Your task to perform on an android device: Add acer predator to the cart on ebay.com Image 0: 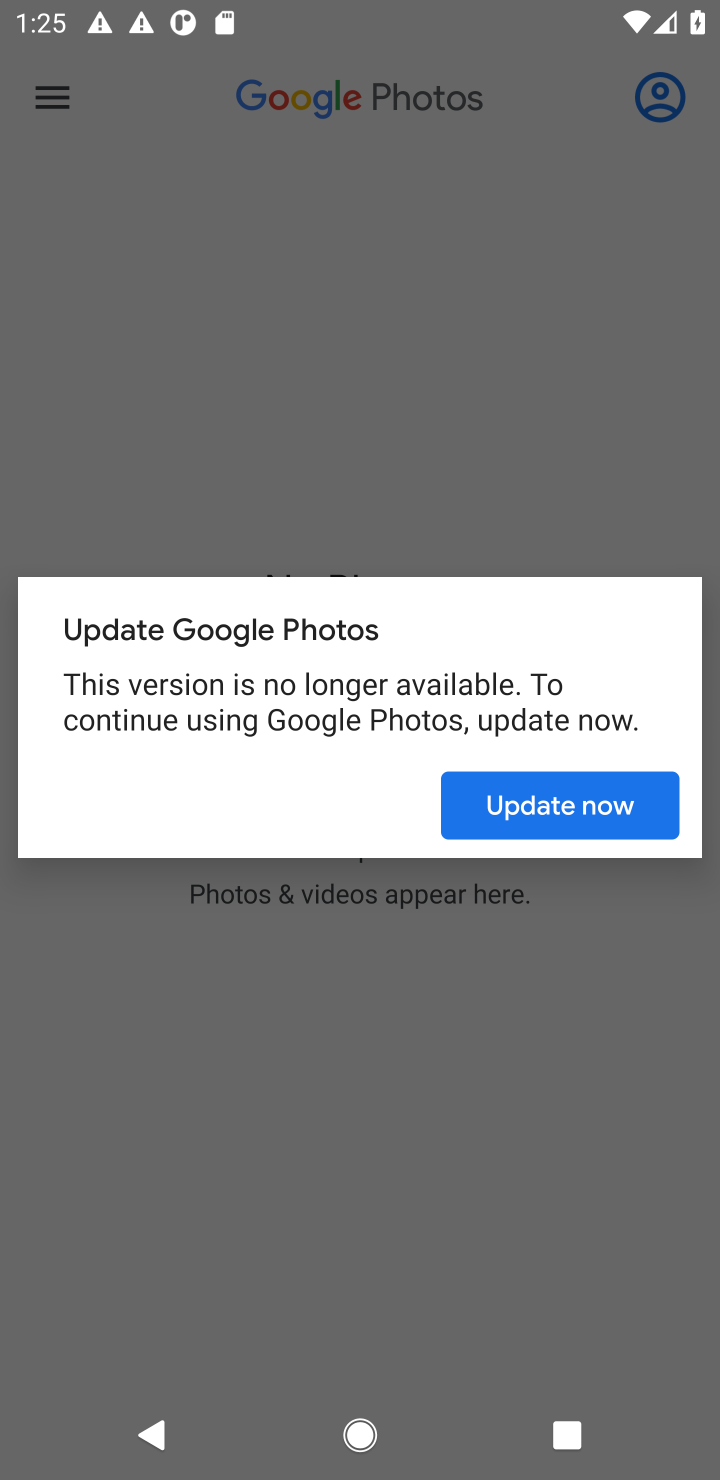
Step 0: press home button
Your task to perform on an android device: Add acer predator to the cart on ebay.com Image 1: 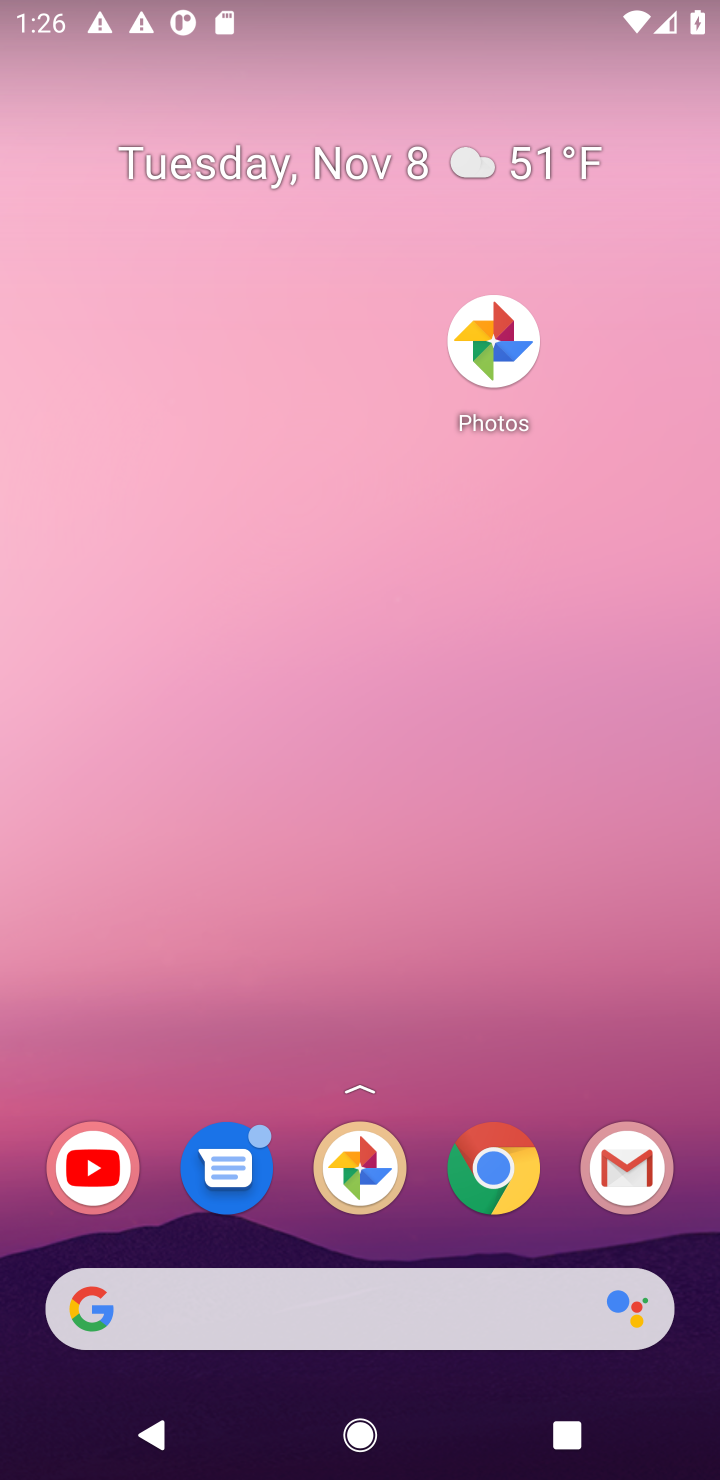
Step 1: drag from (189, 913) to (230, 49)
Your task to perform on an android device: Add acer predator to the cart on ebay.com Image 2: 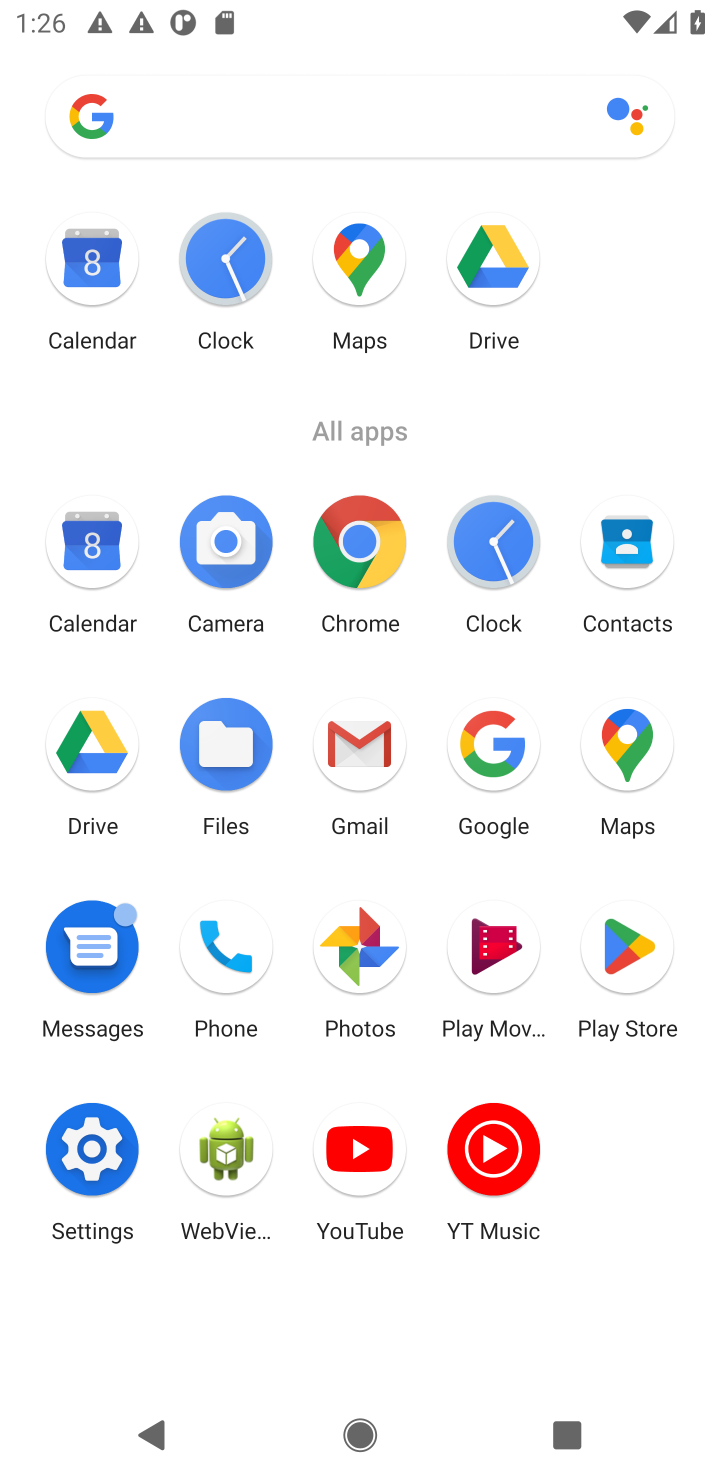
Step 2: click (351, 526)
Your task to perform on an android device: Add acer predator to the cart on ebay.com Image 3: 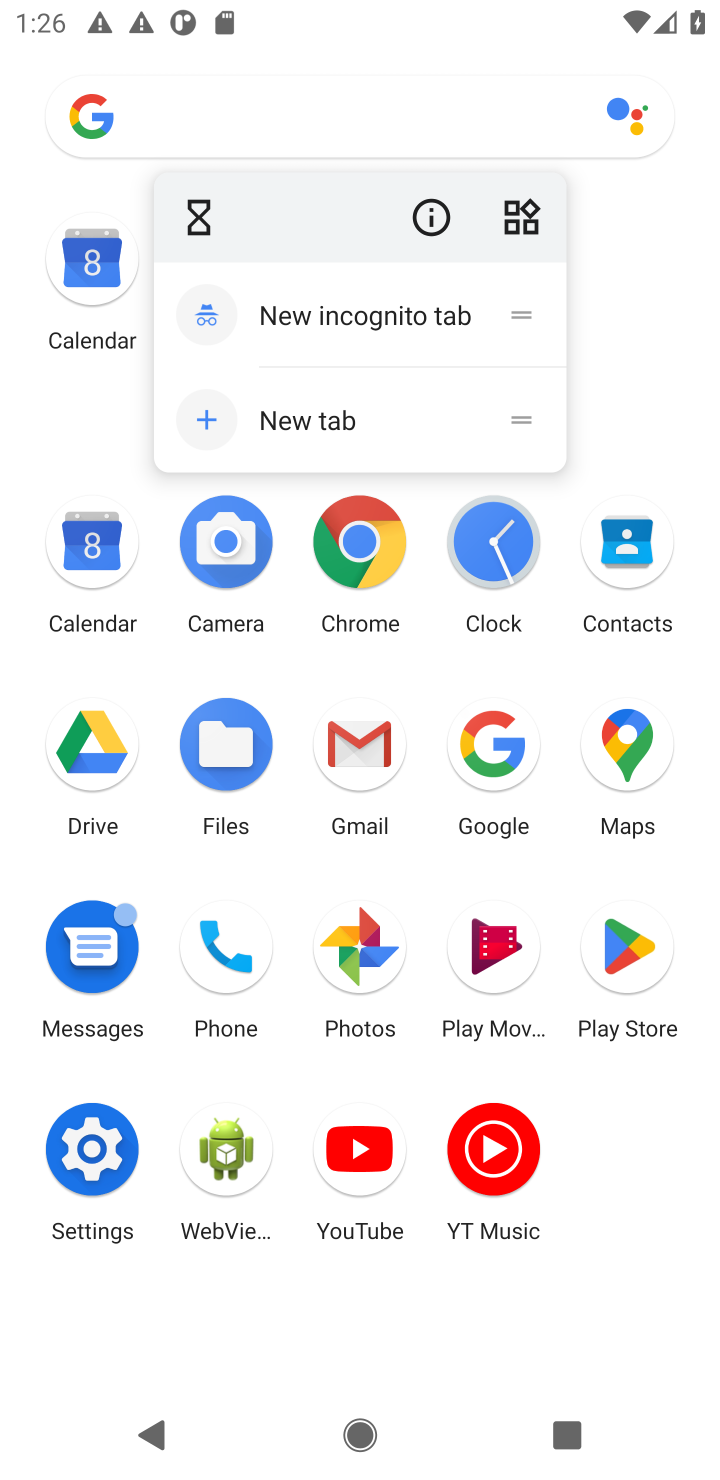
Step 3: click (401, 555)
Your task to perform on an android device: Add acer predator to the cart on ebay.com Image 4: 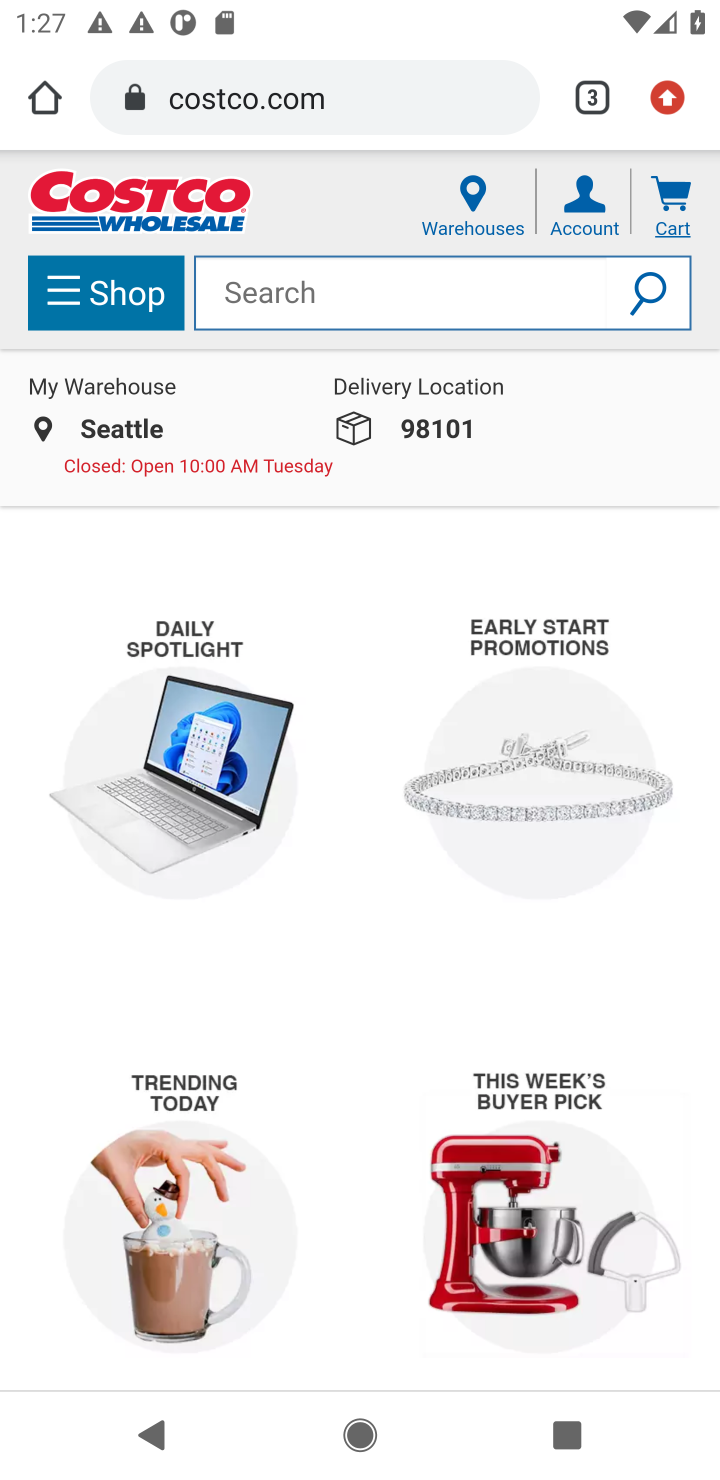
Step 4: click (312, 88)
Your task to perform on an android device: Add acer predator to the cart on ebay.com Image 5: 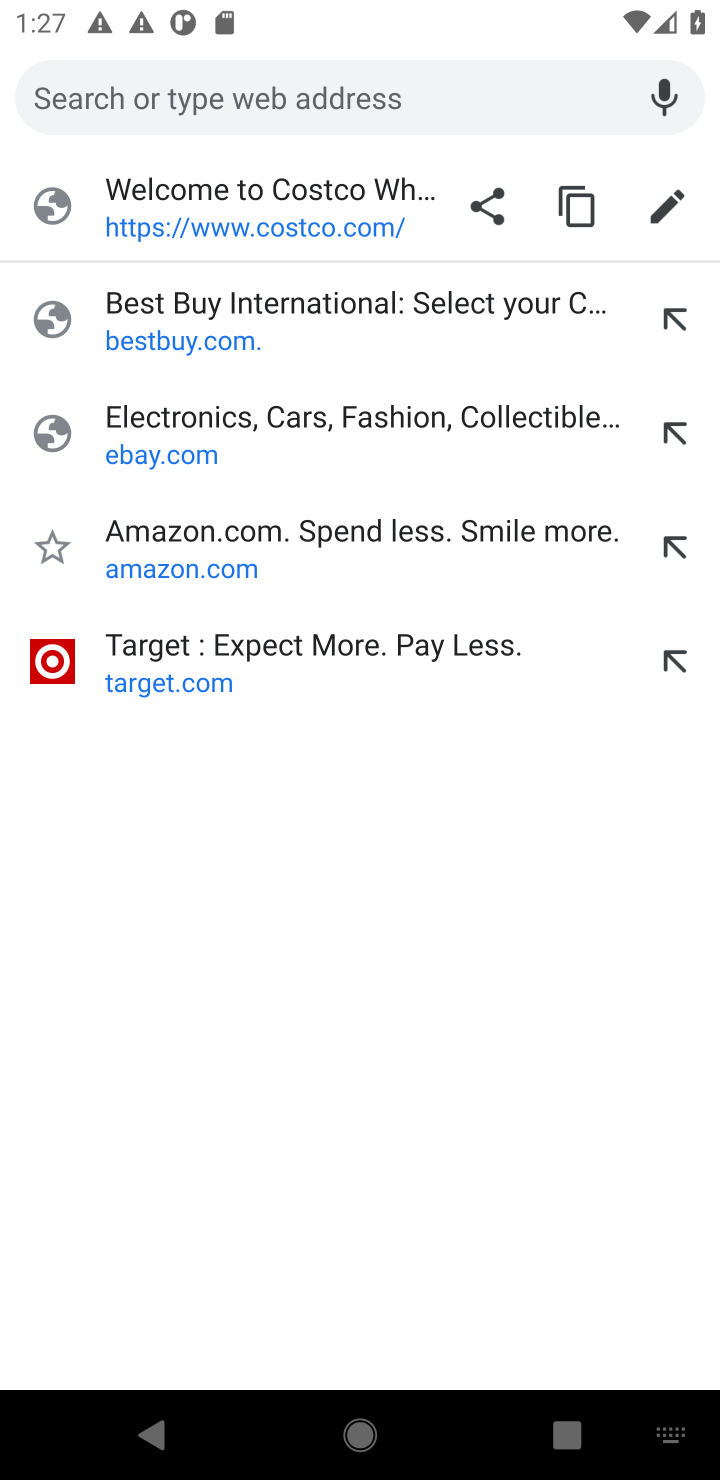
Step 5: type "ebay.com"
Your task to perform on an android device: Add acer predator to the cart on ebay.com Image 6: 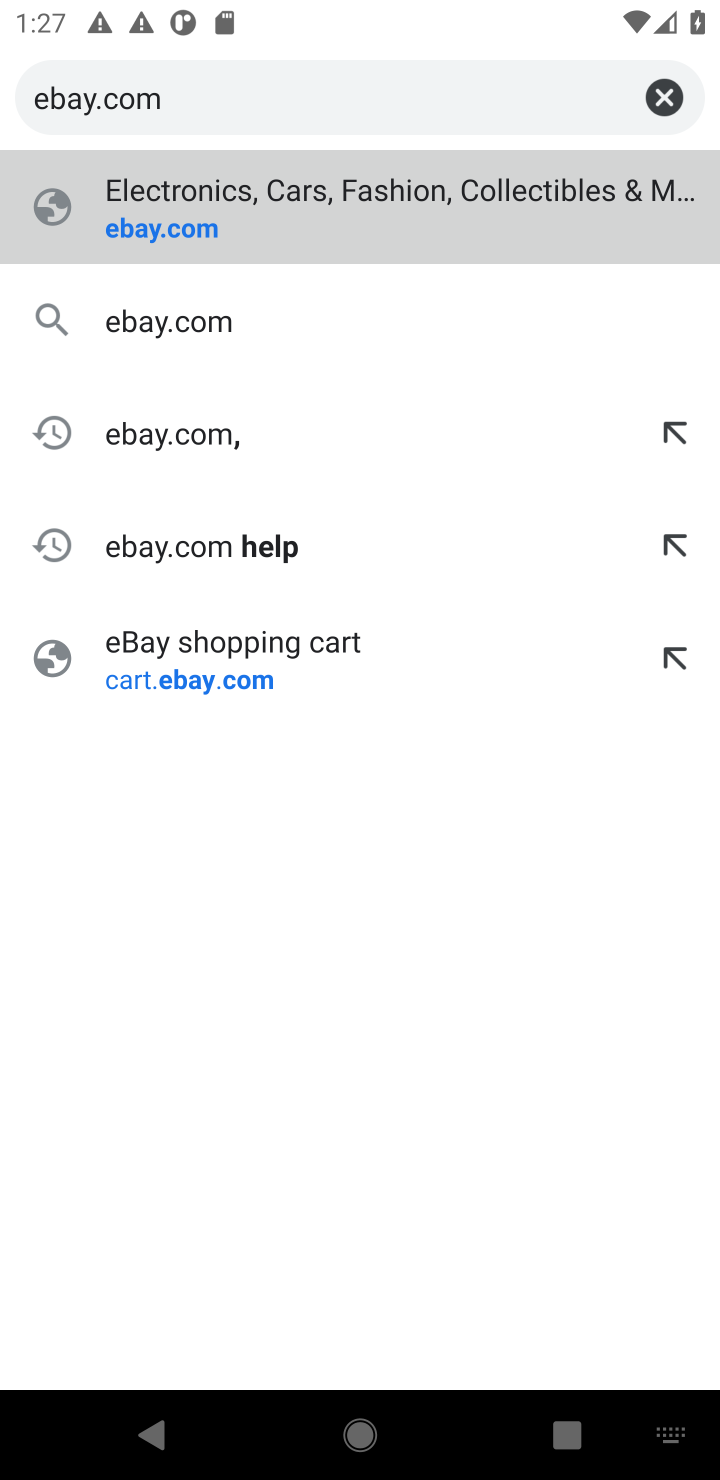
Step 6: press enter
Your task to perform on an android device: Add acer predator to the cart on ebay.com Image 7: 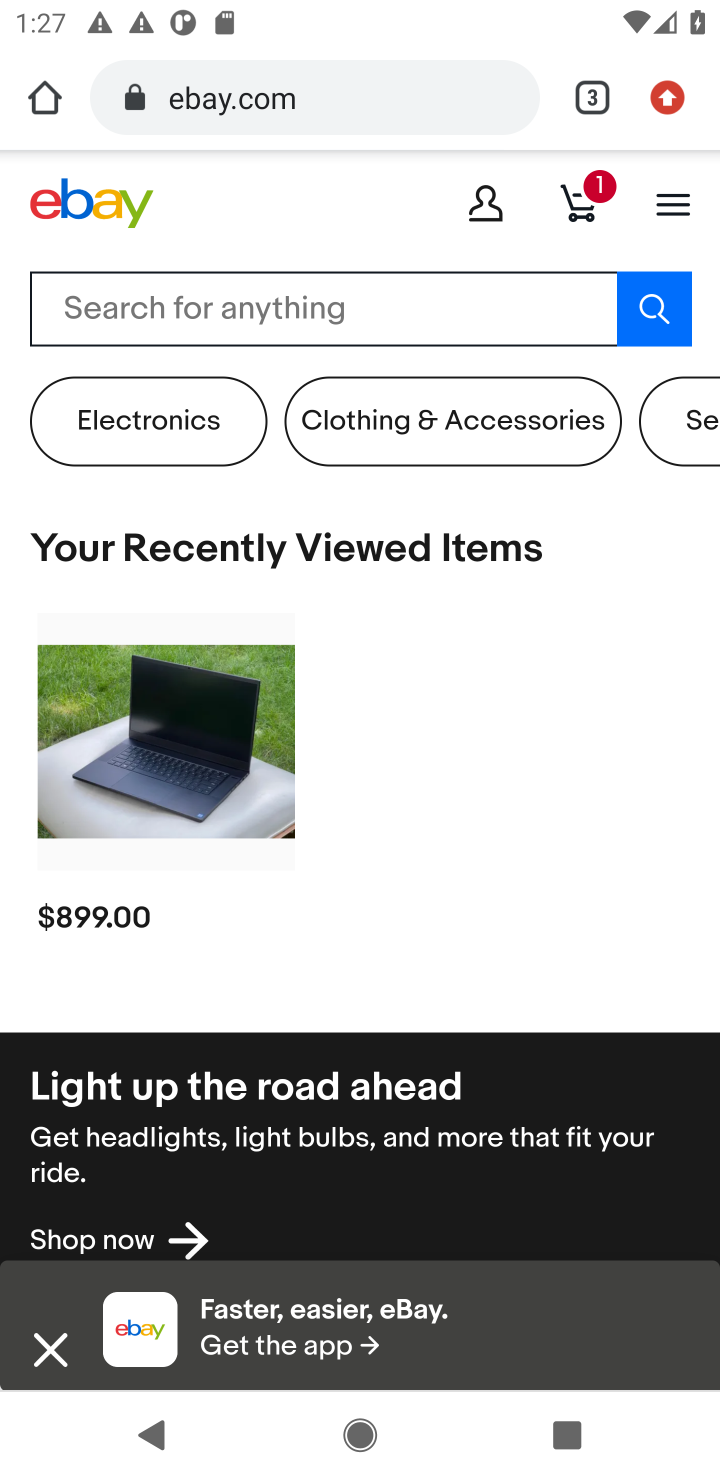
Step 7: click (274, 302)
Your task to perform on an android device: Add acer predator to the cart on ebay.com Image 8: 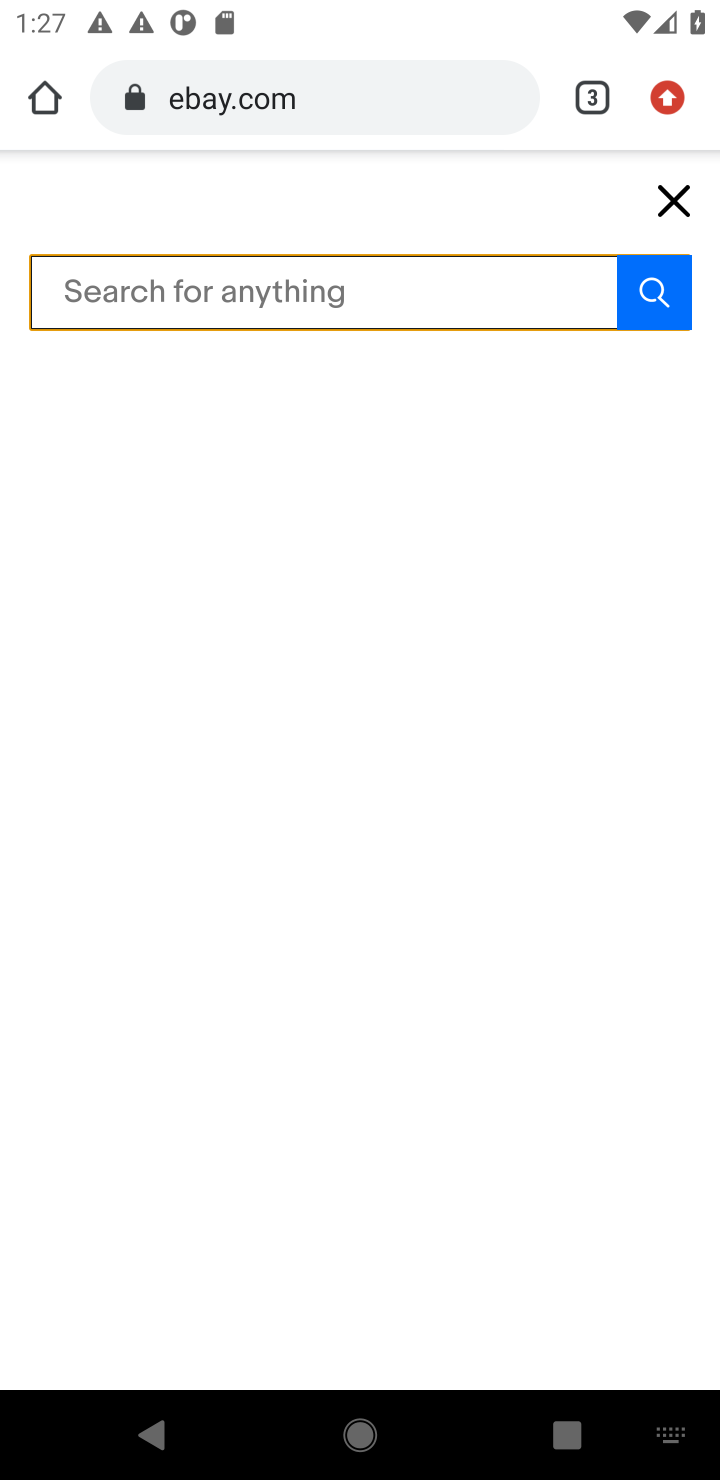
Step 8: press enter
Your task to perform on an android device: Add acer predator to the cart on ebay.com Image 9: 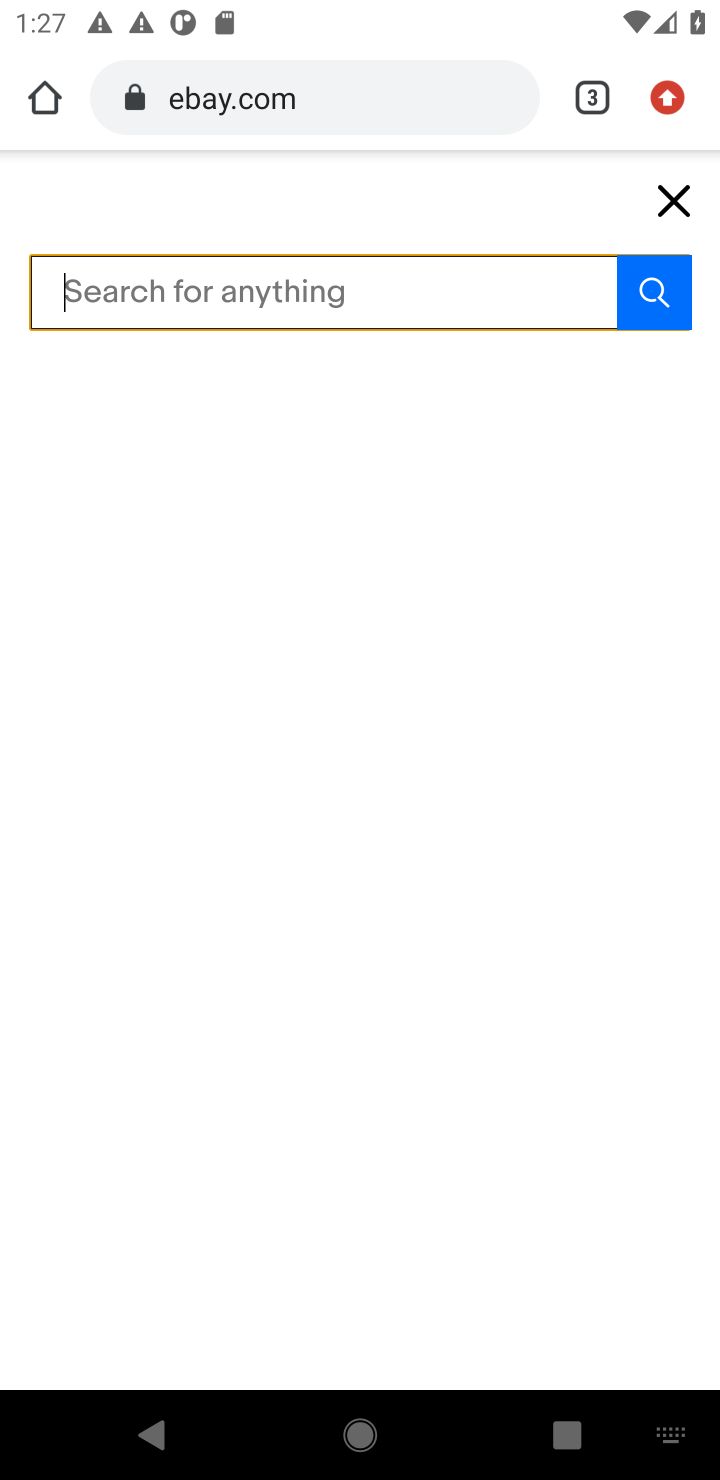
Step 9: type "acer predator"
Your task to perform on an android device: Add acer predator to the cart on ebay.com Image 10: 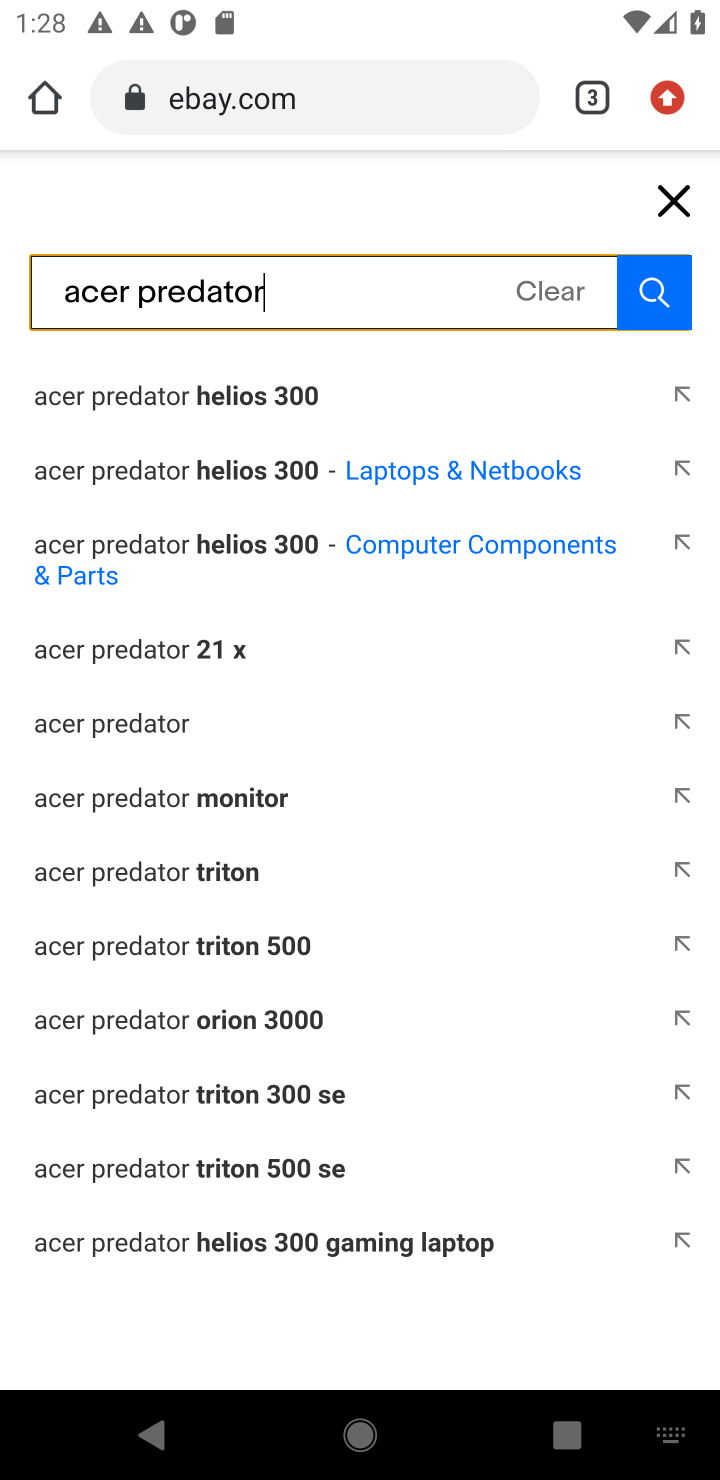
Step 10: click (650, 291)
Your task to perform on an android device: Add acer predator to the cart on ebay.com Image 11: 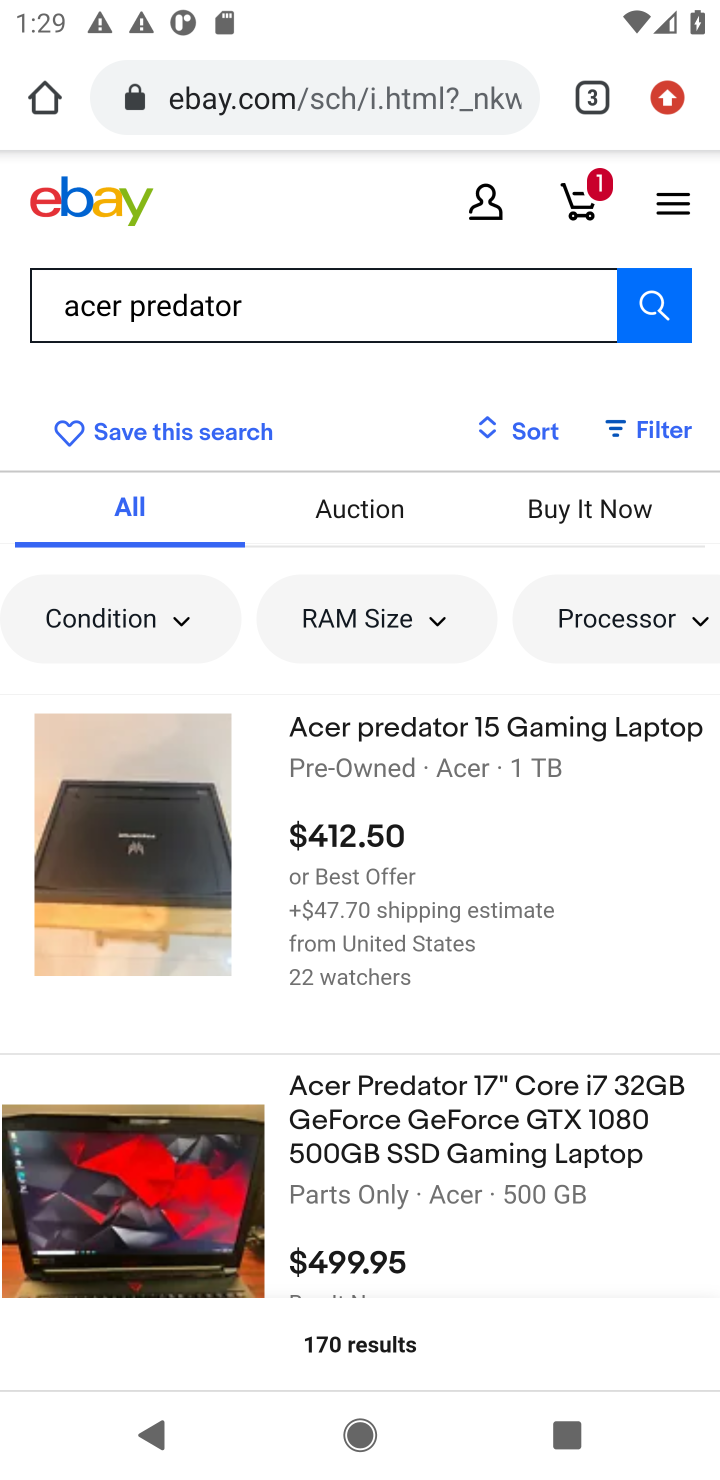
Step 11: click (473, 748)
Your task to perform on an android device: Add acer predator to the cart on ebay.com Image 12: 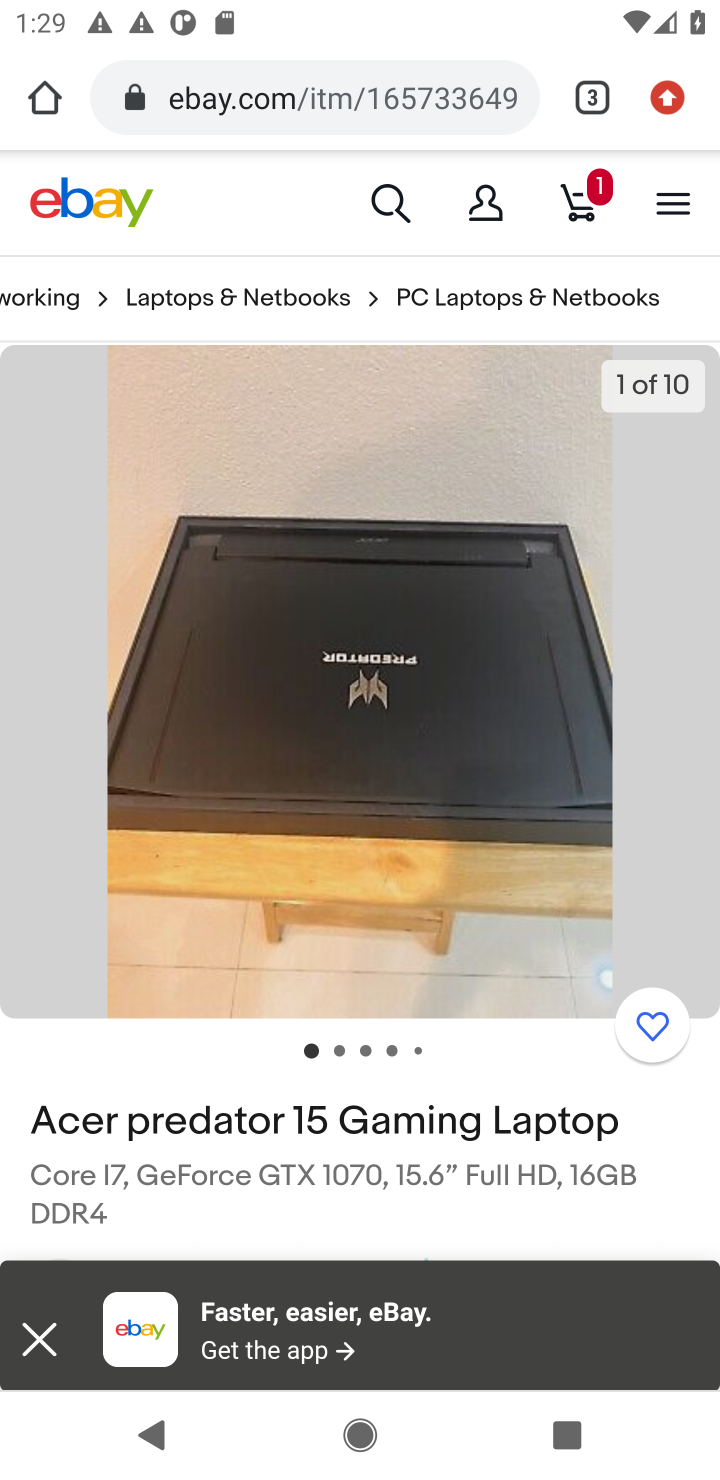
Step 12: drag from (447, 834) to (499, 571)
Your task to perform on an android device: Add acer predator to the cart on ebay.com Image 13: 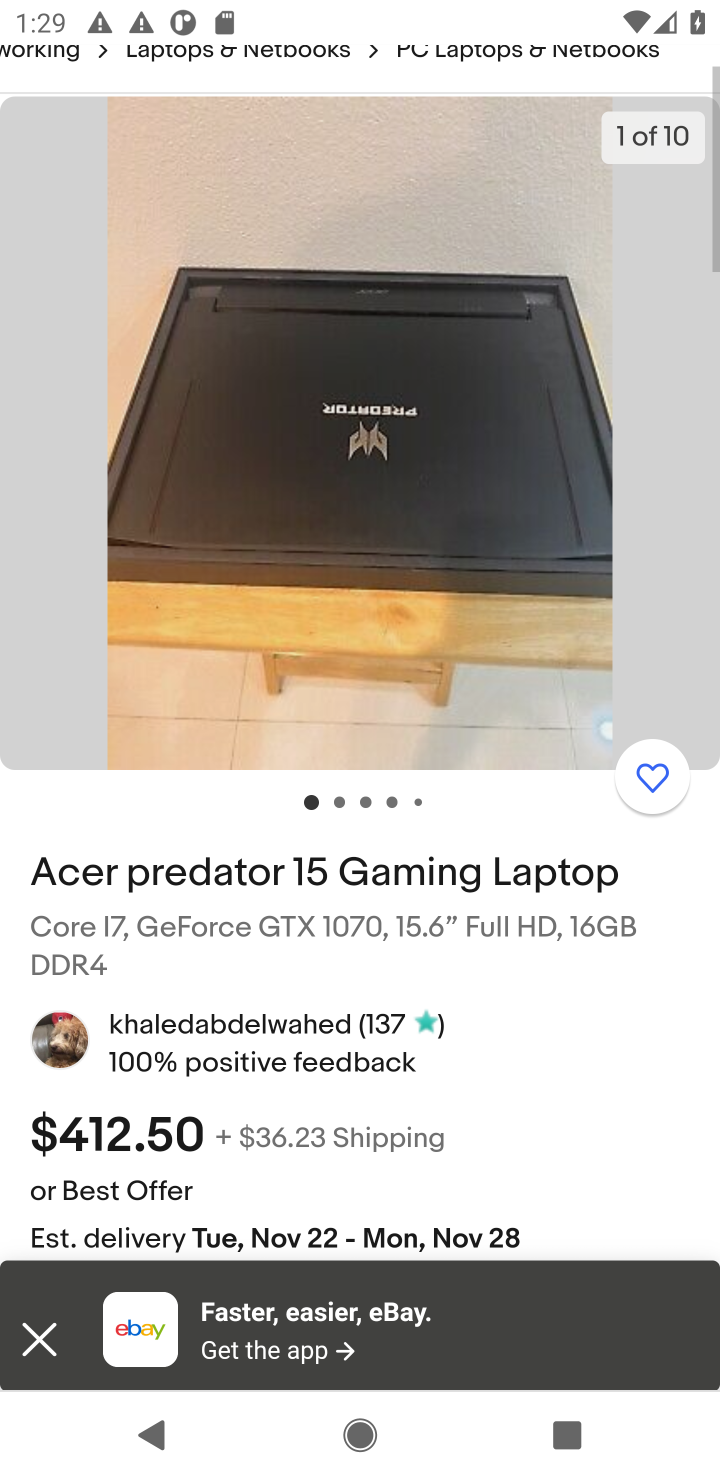
Step 13: click (427, 734)
Your task to perform on an android device: Add acer predator to the cart on ebay.com Image 14: 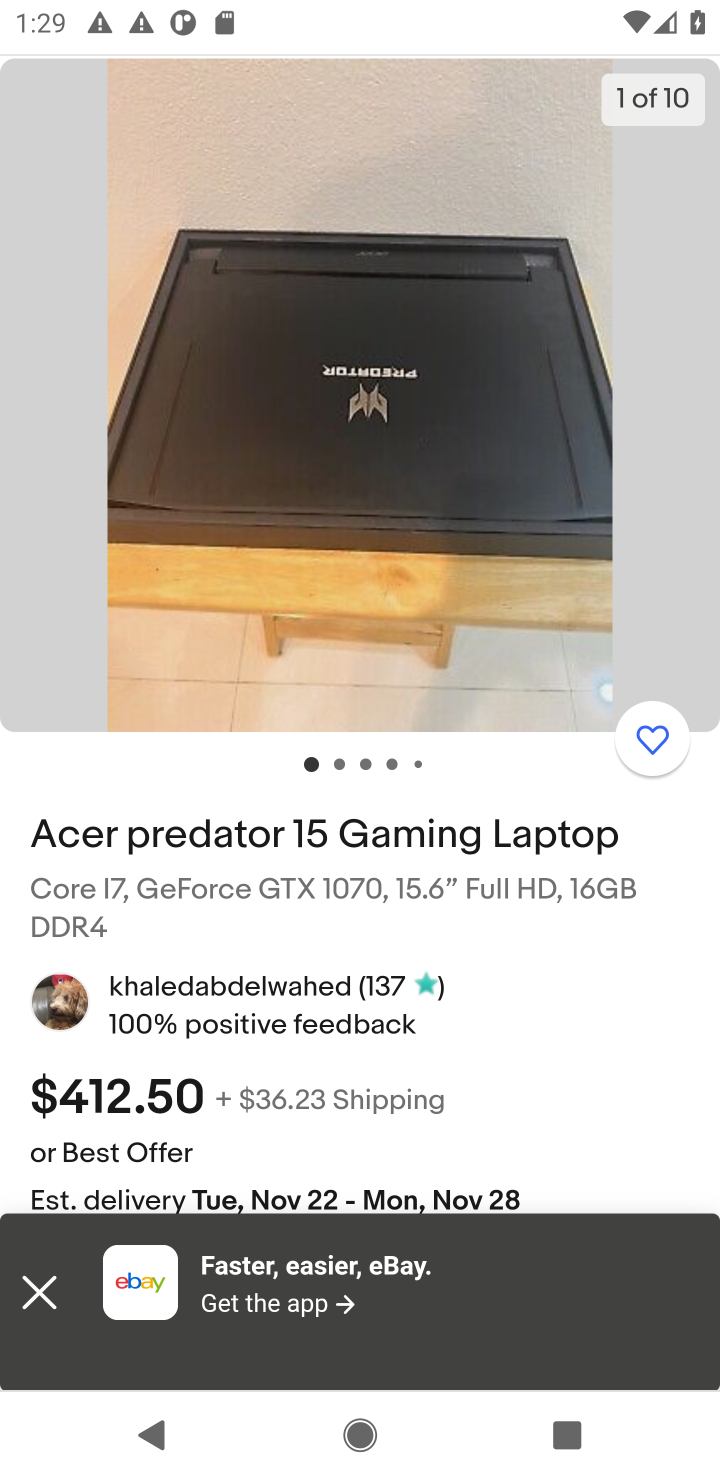
Step 14: drag from (498, 725) to (509, 546)
Your task to perform on an android device: Add acer predator to the cart on ebay.com Image 15: 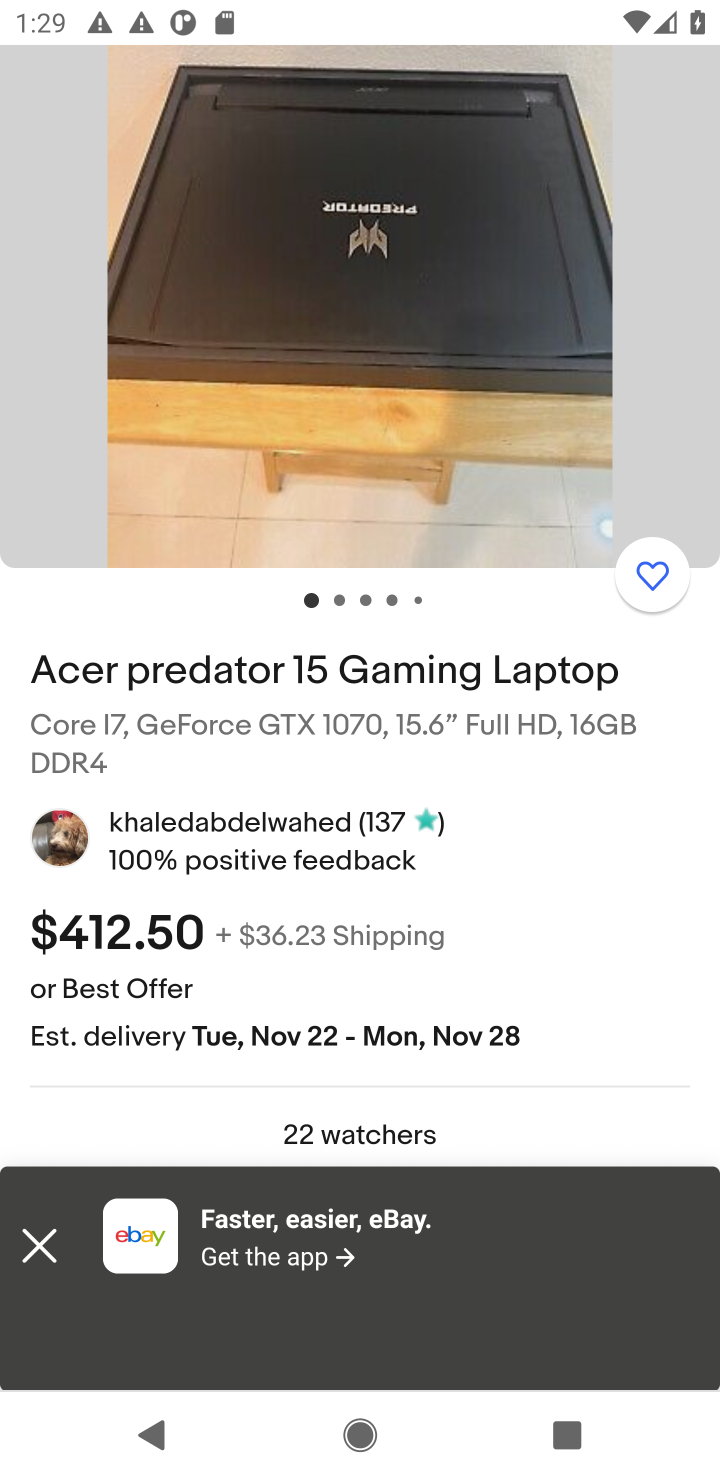
Step 15: drag from (406, 953) to (414, 480)
Your task to perform on an android device: Add acer predator to the cart on ebay.com Image 16: 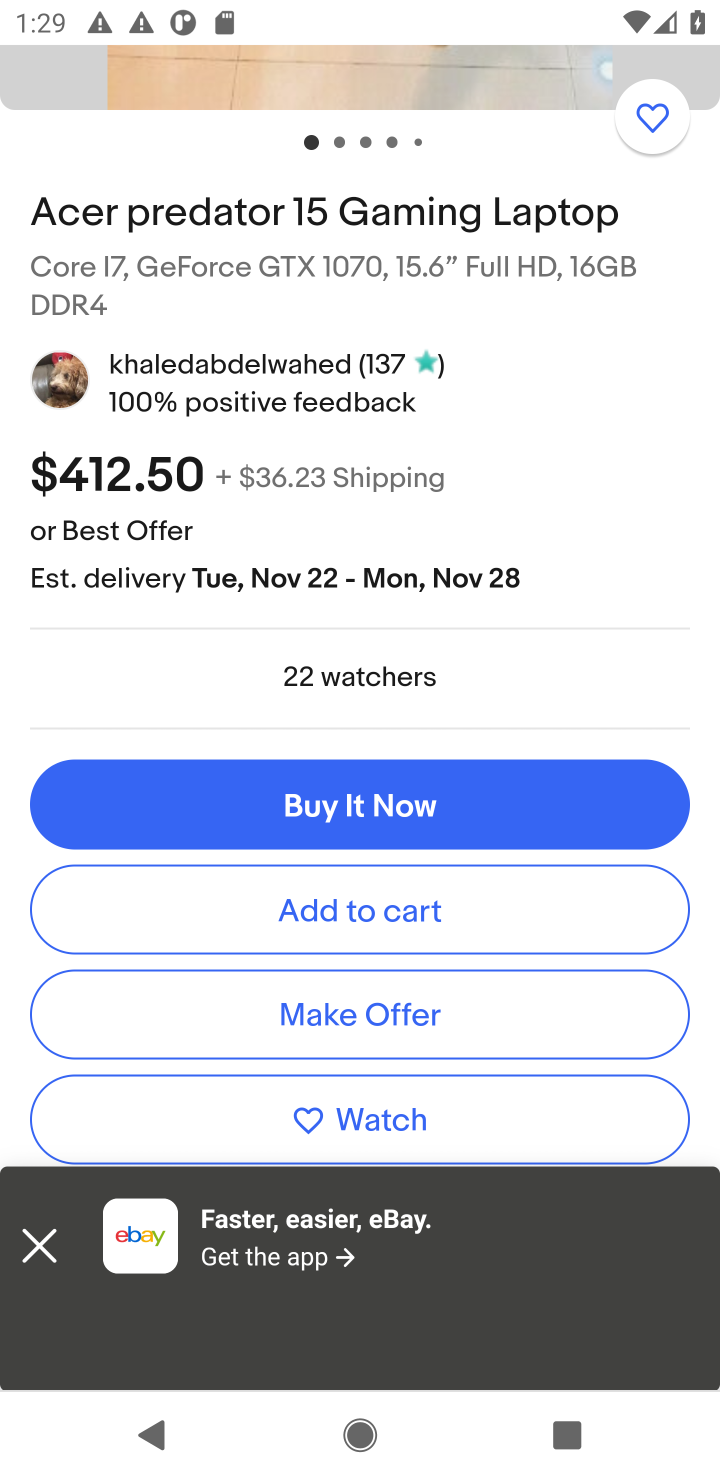
Step 16: click (429, 918)
Your task to perform on an android device: Add acer predator to the cart on ebay.com Image 17: 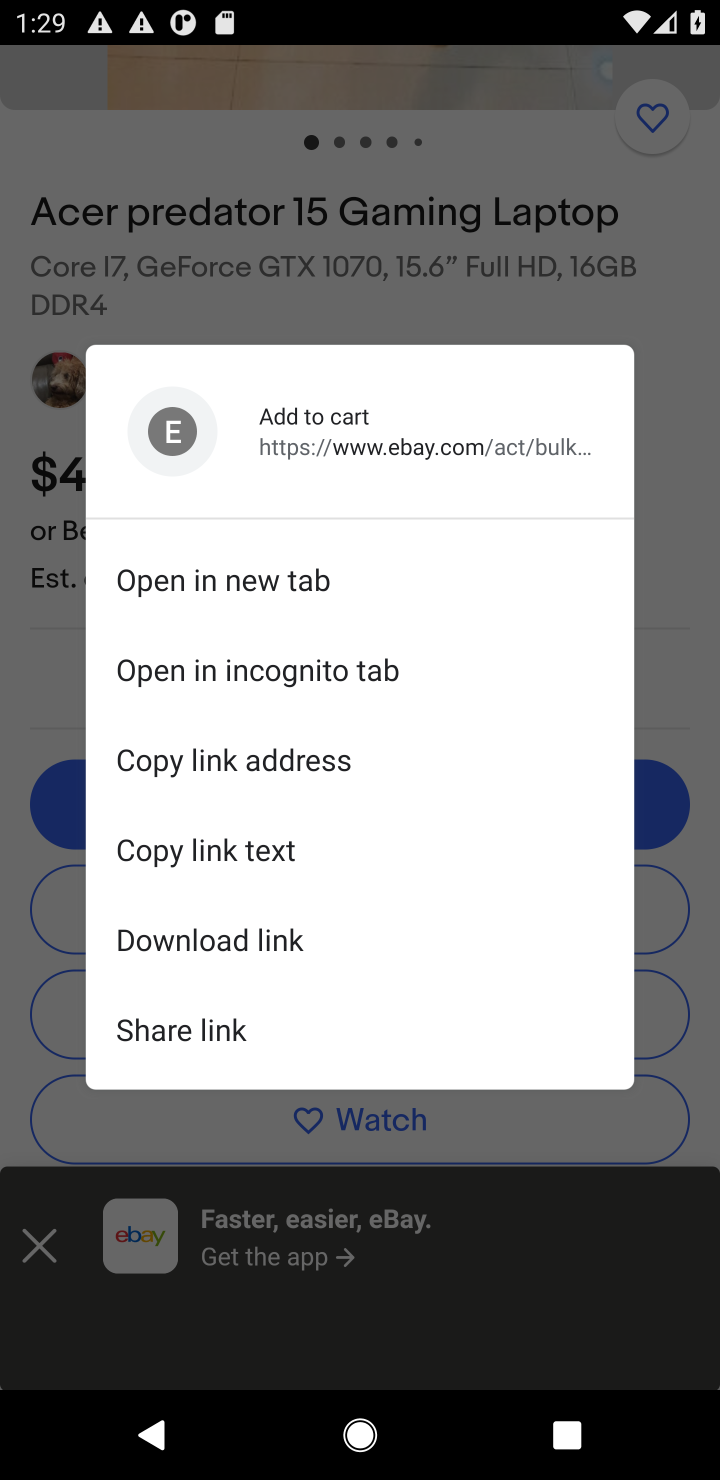
Step 17: click (292, 580)
Your task to perform on an android device: Add acer predator to the cart on ebay.com Image 18: 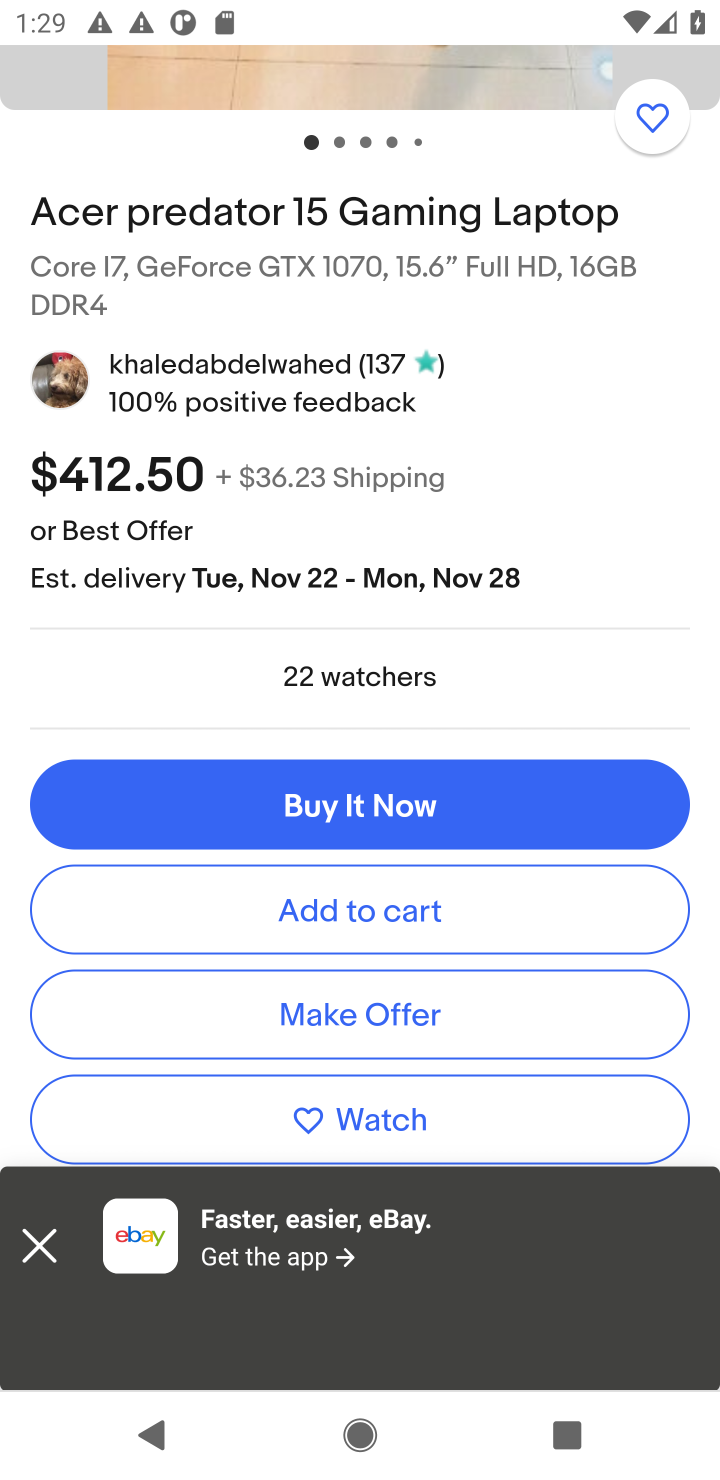
Step 18: click (360, 907)
Your task to perform on an android device: Add acer predator to the cart on ebay.com Image 19: 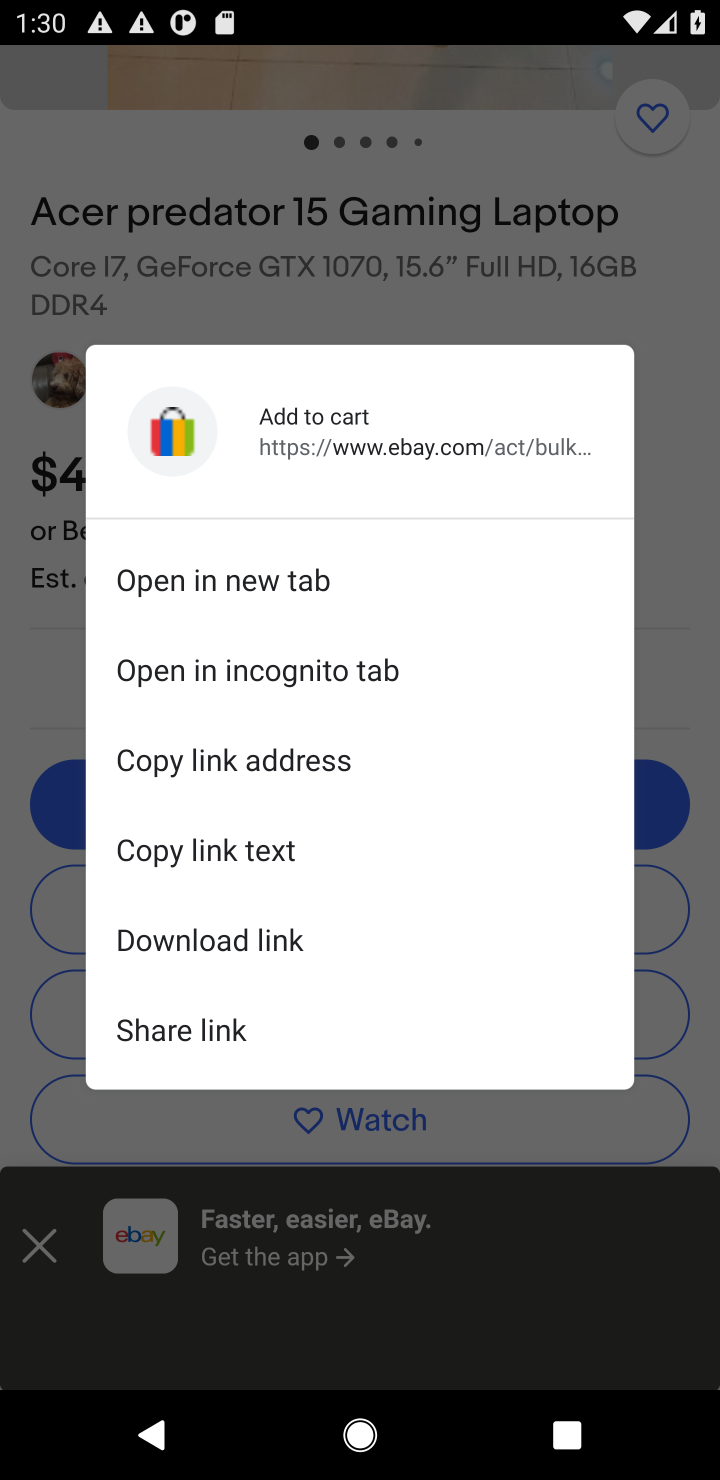
Step 19: click (275, 592)
Your task to perform on an android device: Add acer predator to the cart on ebay.com Image 20: 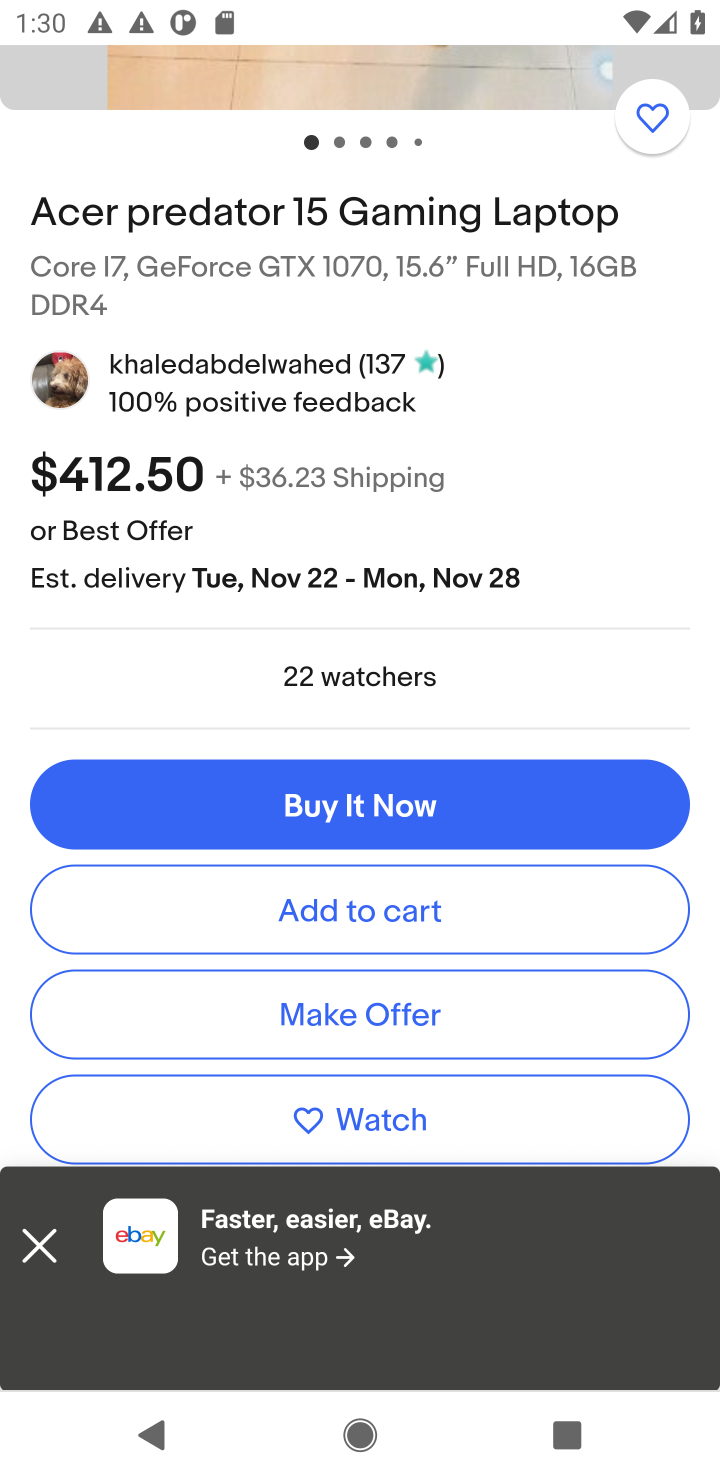
Step 20: drag from (438, 593) to (526, 967)
Your task to perform on an android device: Add acer predator to the cart on ebay.com Image 21: 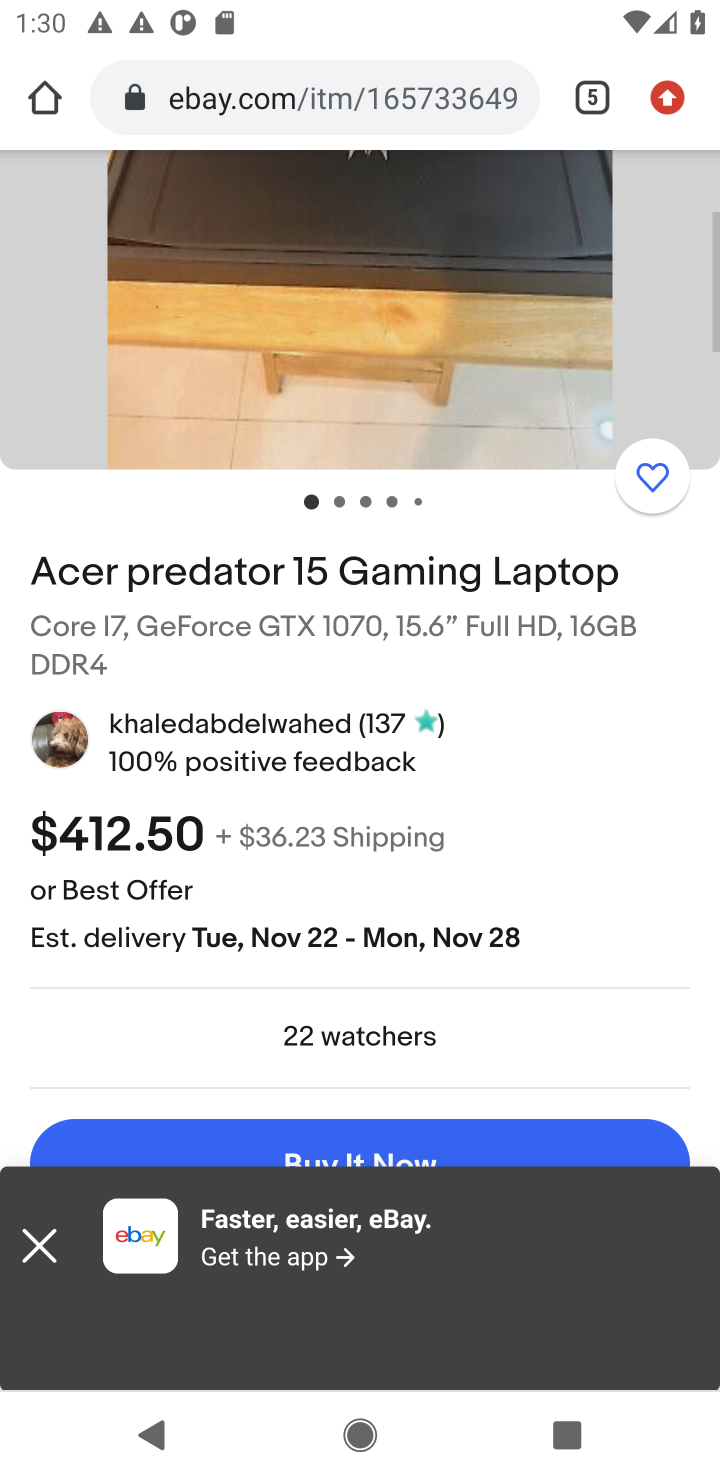
Step 21: drag from (539, 1028) to (585, 523)
Your task to perform on an android device: Add acer predator to the cart on ebay.com Image 22: 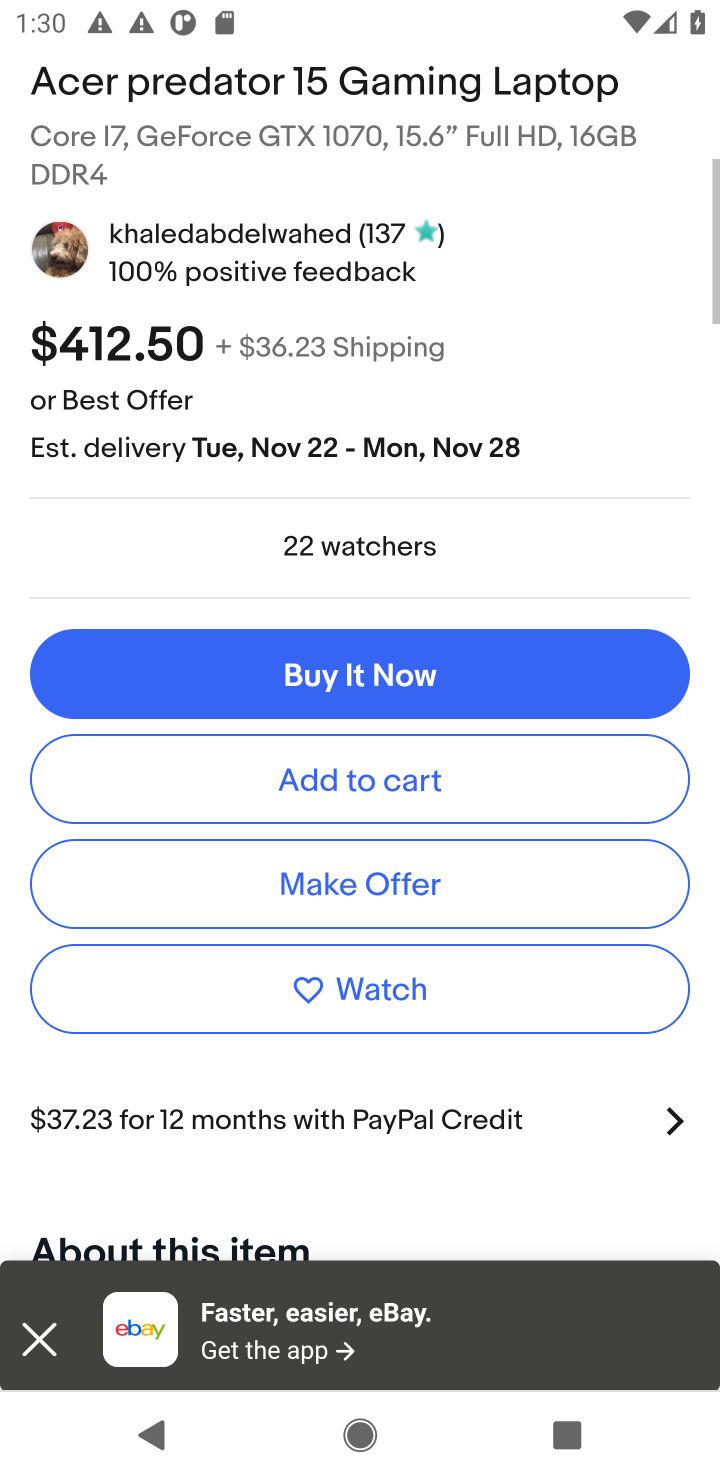
Step 22: drag from (512, 960) to (527, 513)
Your task to perform on an android device: Add acer predator to the cart on ebay.com Image 23: 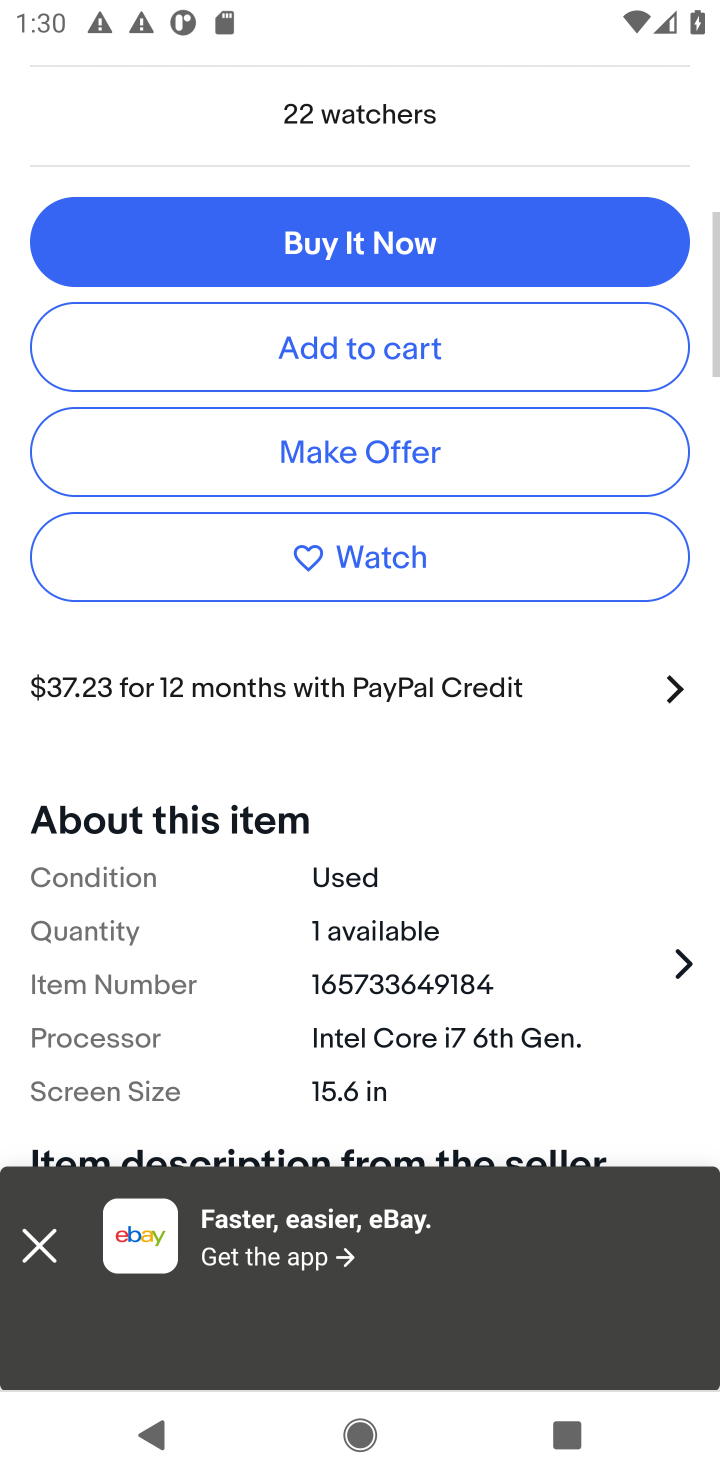
Step 23: drag from (492, 1047) to (513, 523)
Your task to perform on an android device: Add acer predator to the cart on ebay.com Image 24: 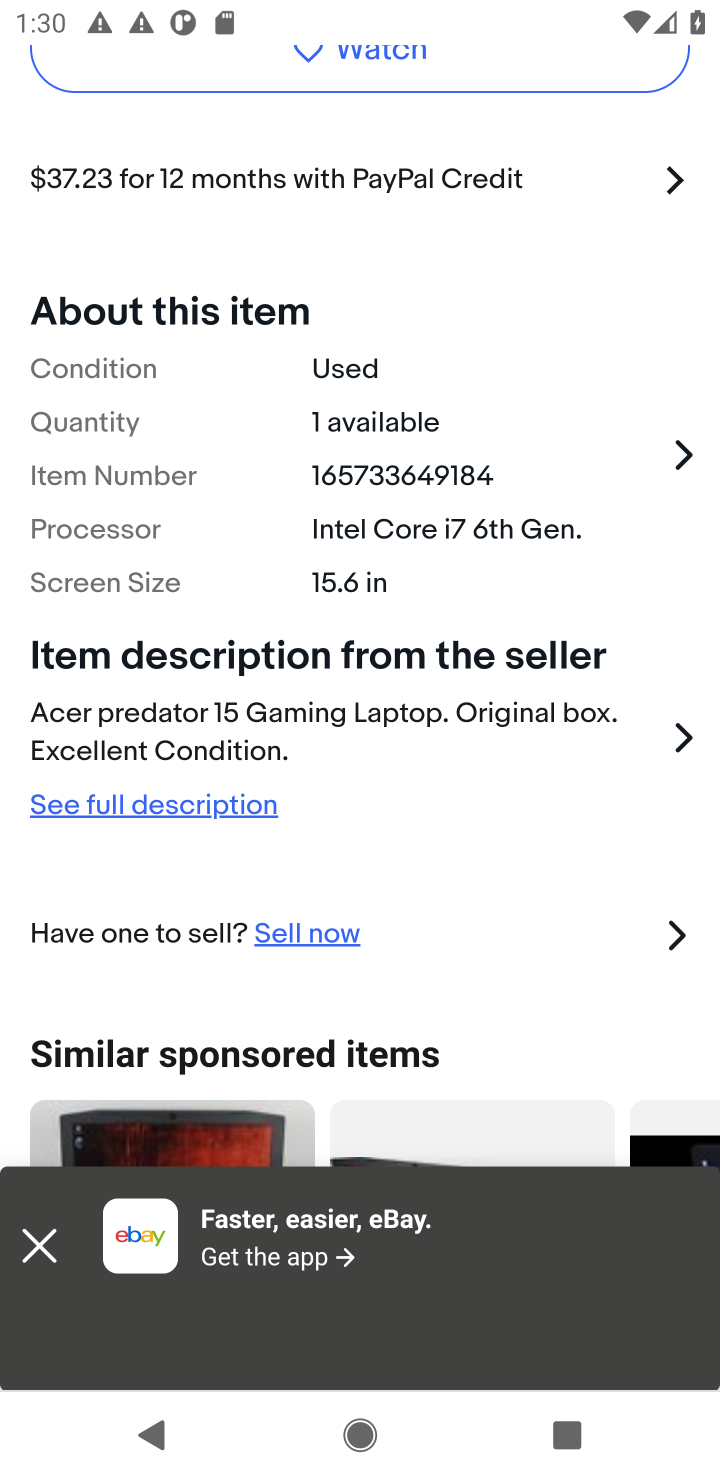
Step 24: drag from (510, 665) to (506, 1010)
Your task to perform on an android device: Add acer predator to the cart on ebay.com Image 25: 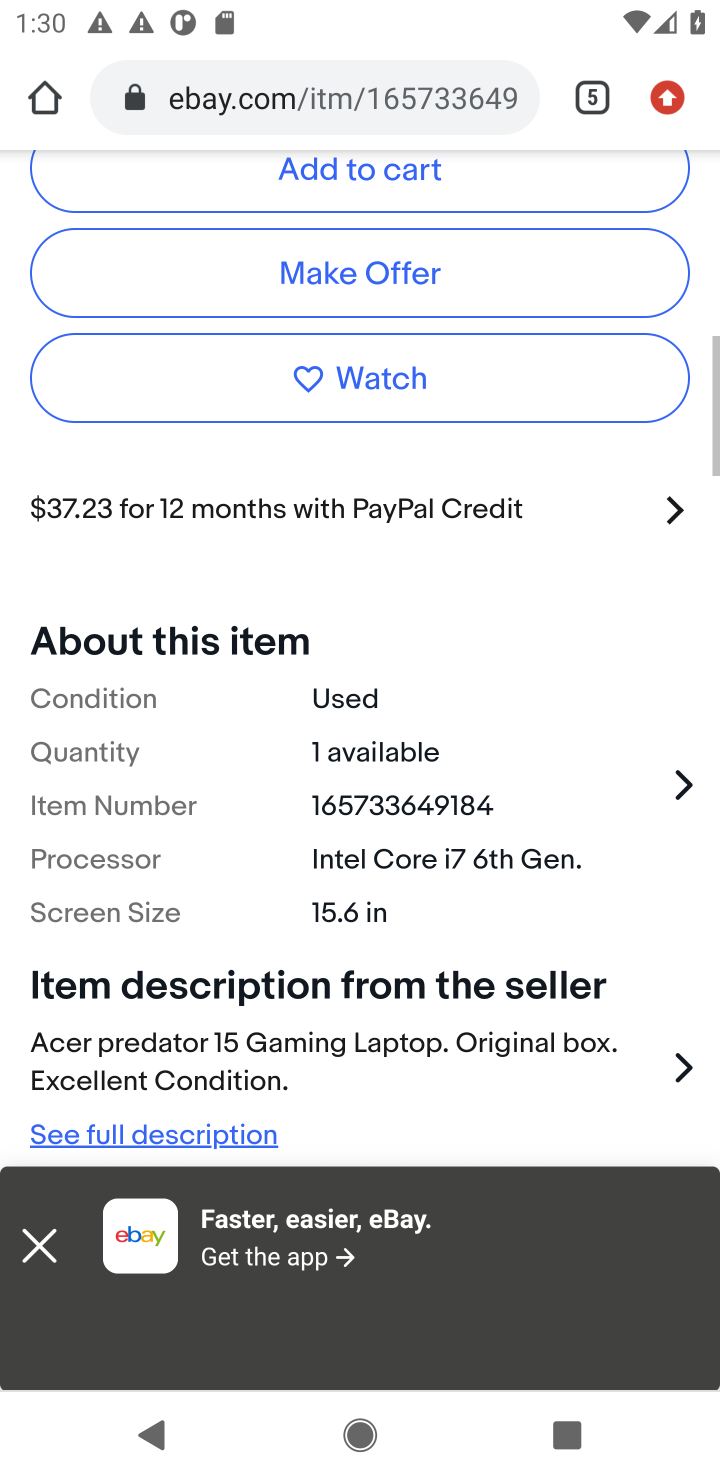
Step 25: drag from (480, 484) to (469, 961)
Your task to perform on an android device: Add acer predator to the cart on ebay.com Image 26: 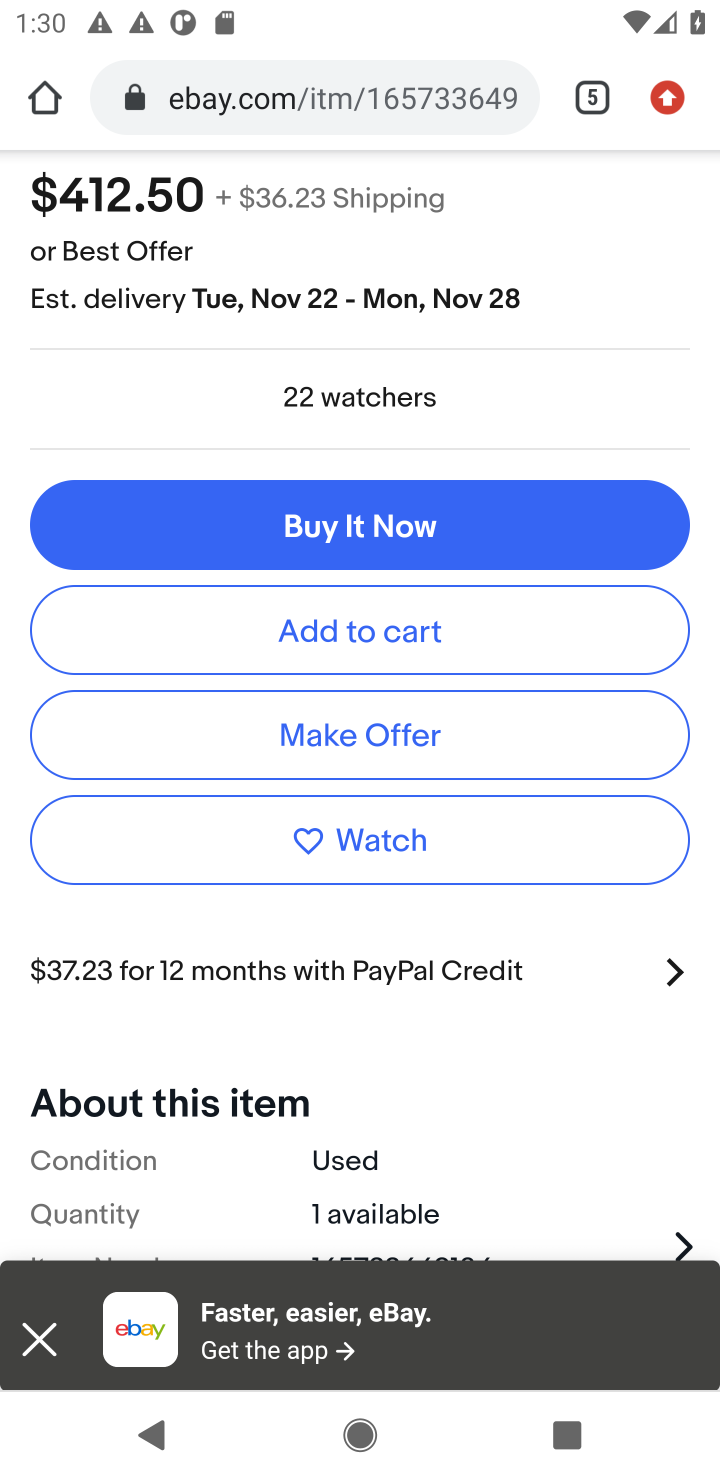
Step 26: click (384, 660)
Your task to perform on an android device: Add acer predator to the cart on ebay.com Image 27: 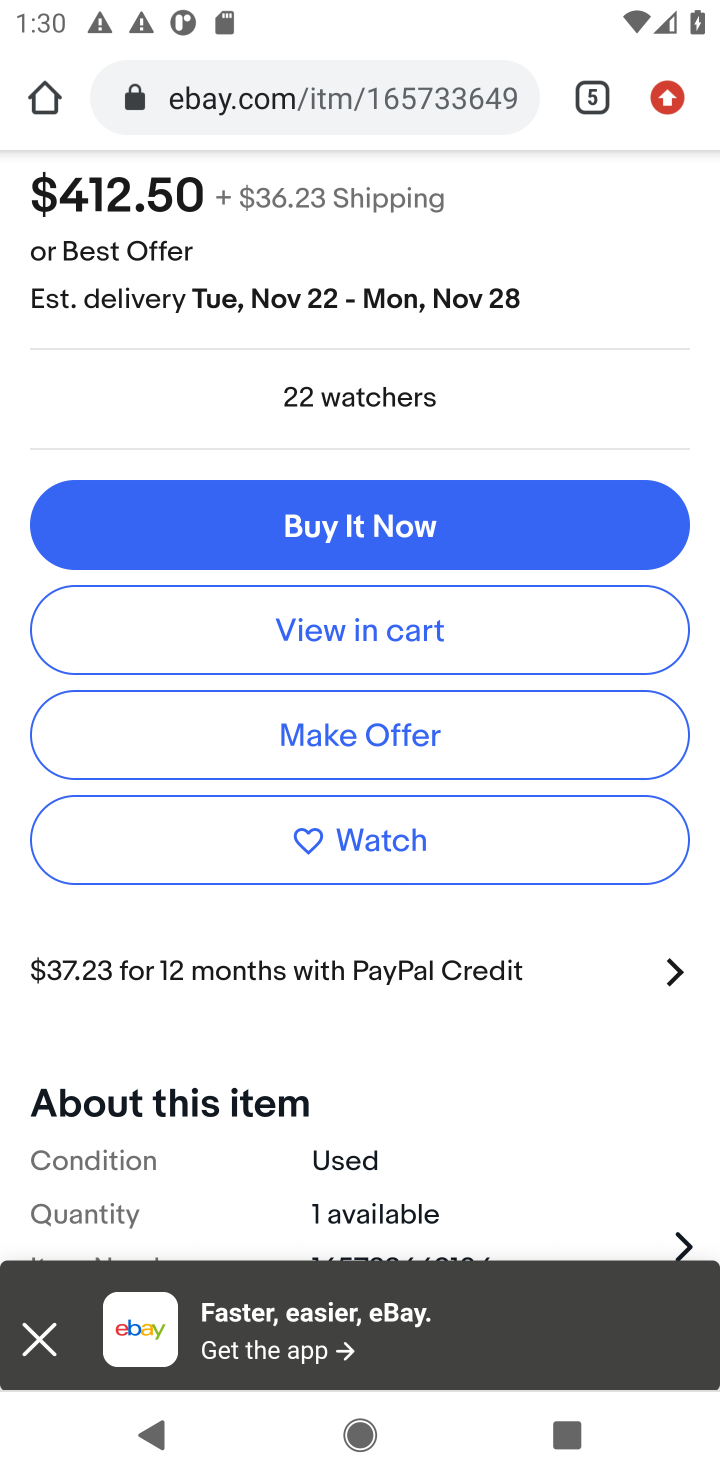
Step 27: drag from (547, 463) to (552, 960)
Your task to perform on an android device: Add acer predator to the cart on ebay.com Image 28: 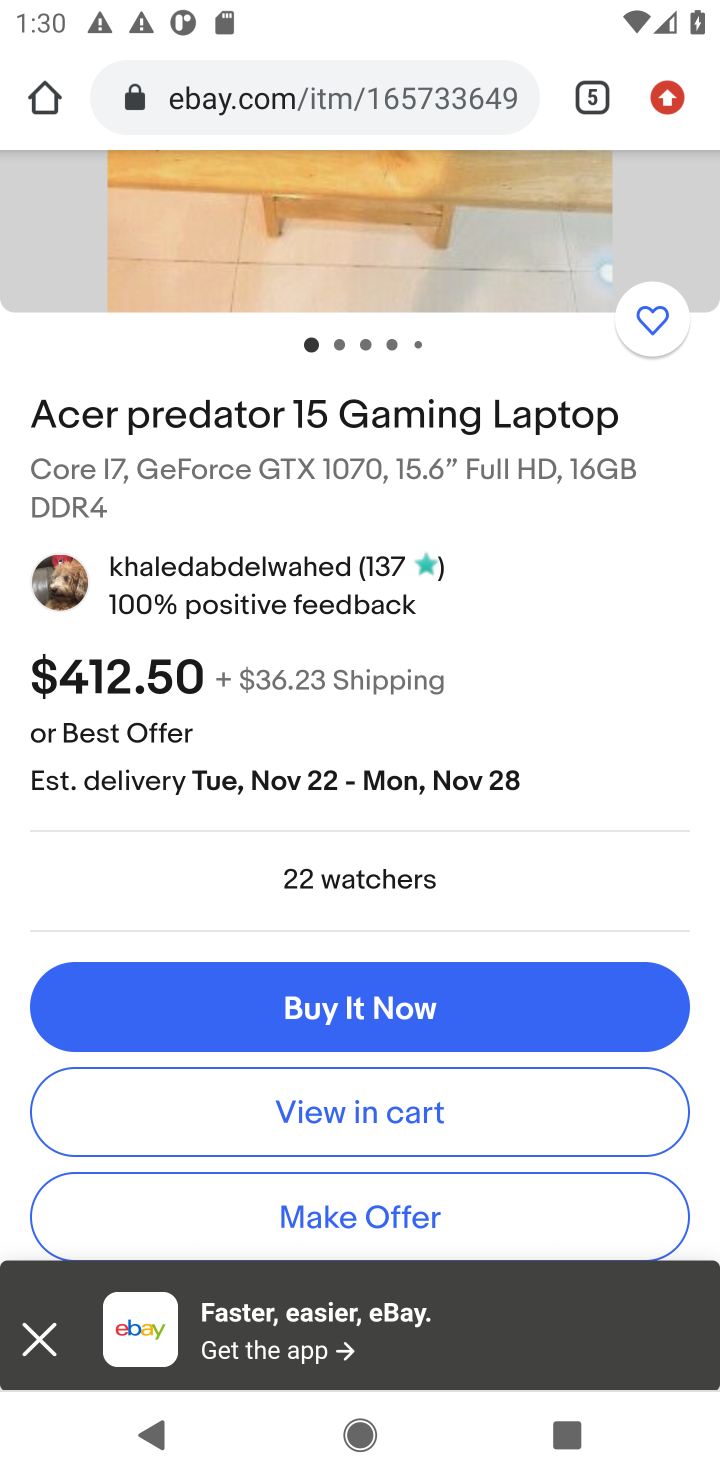
Step 28: drag from (585, 733) to (564, 1021)
Your task to perform on an android device: Add acer predator to the cart on ebay.com Image 29: 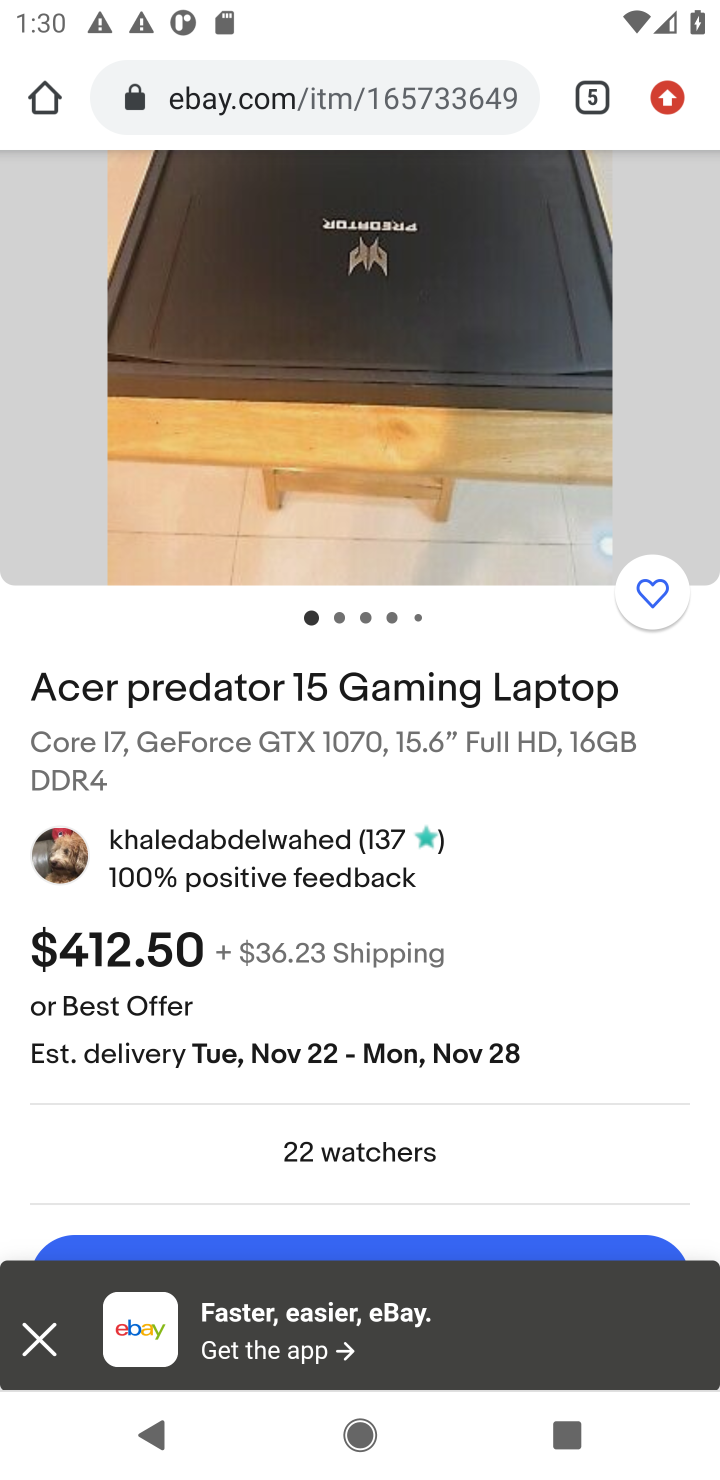
Step 29: drag from (506, 559) to (457, 875)
Your task to perform on an android device: Add acer predator to the cart on ebay.com Image 30: 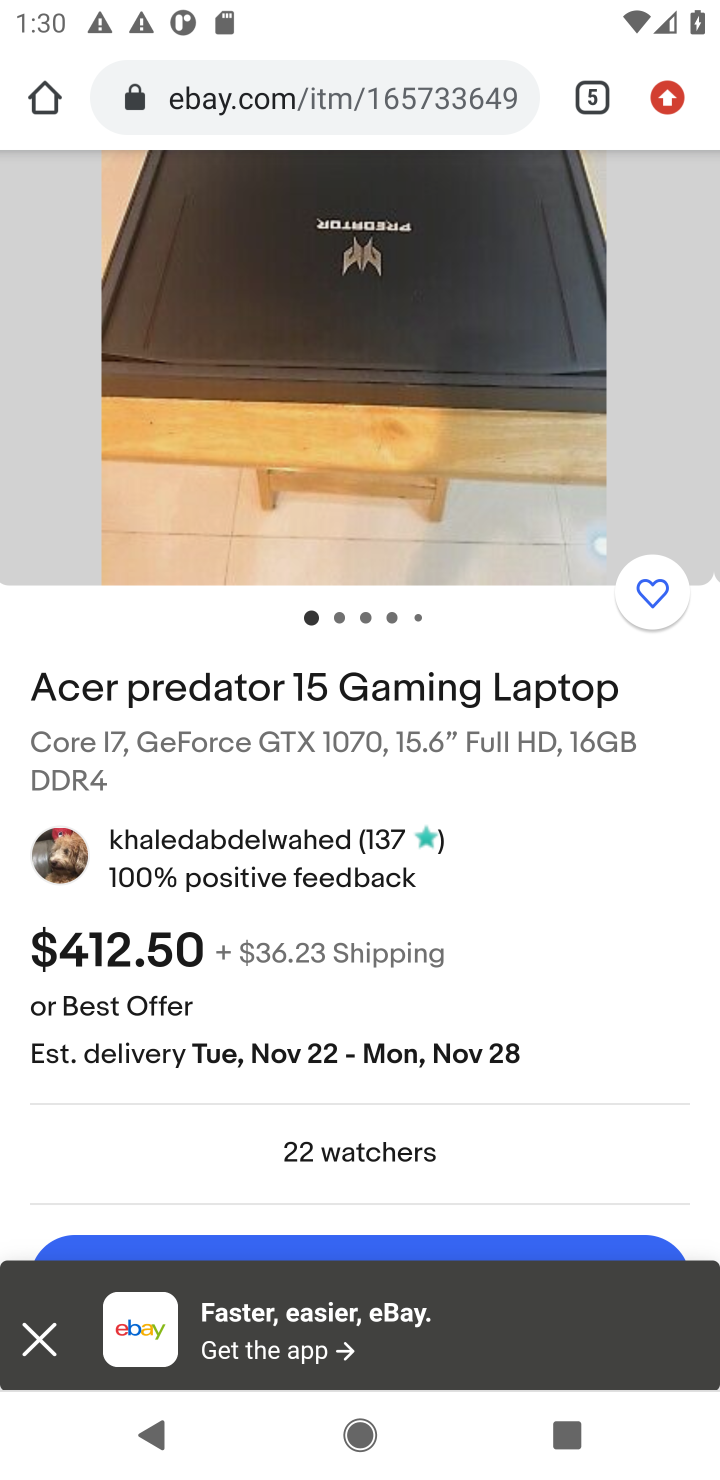
Step 30: drag from (501, 564) to (471, 906)
Your task to perform on an android device: Add acer predator to the cart on ebay.com Image 31: 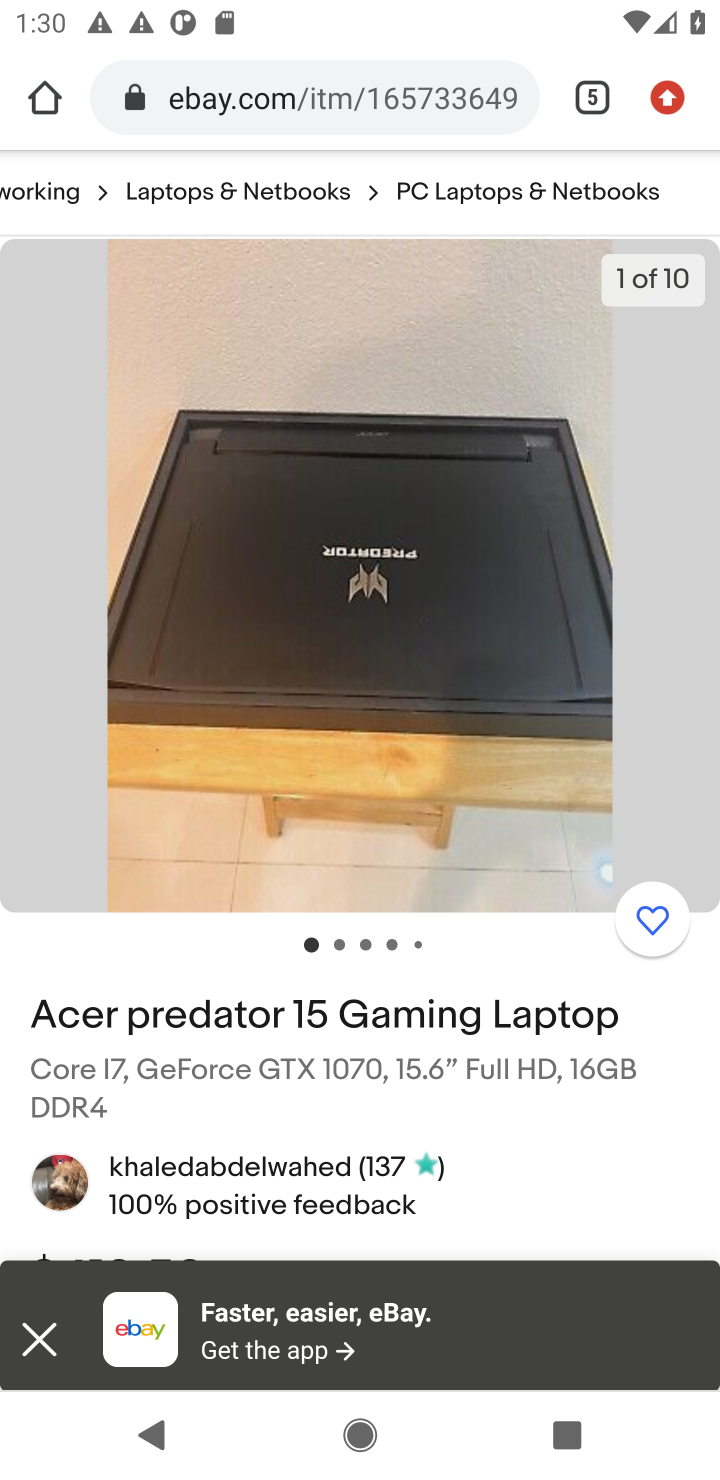
Step 31: click (502, 816)
Your task to perform on an android device: Add acer predator to the cart on ebay.com Image 32: 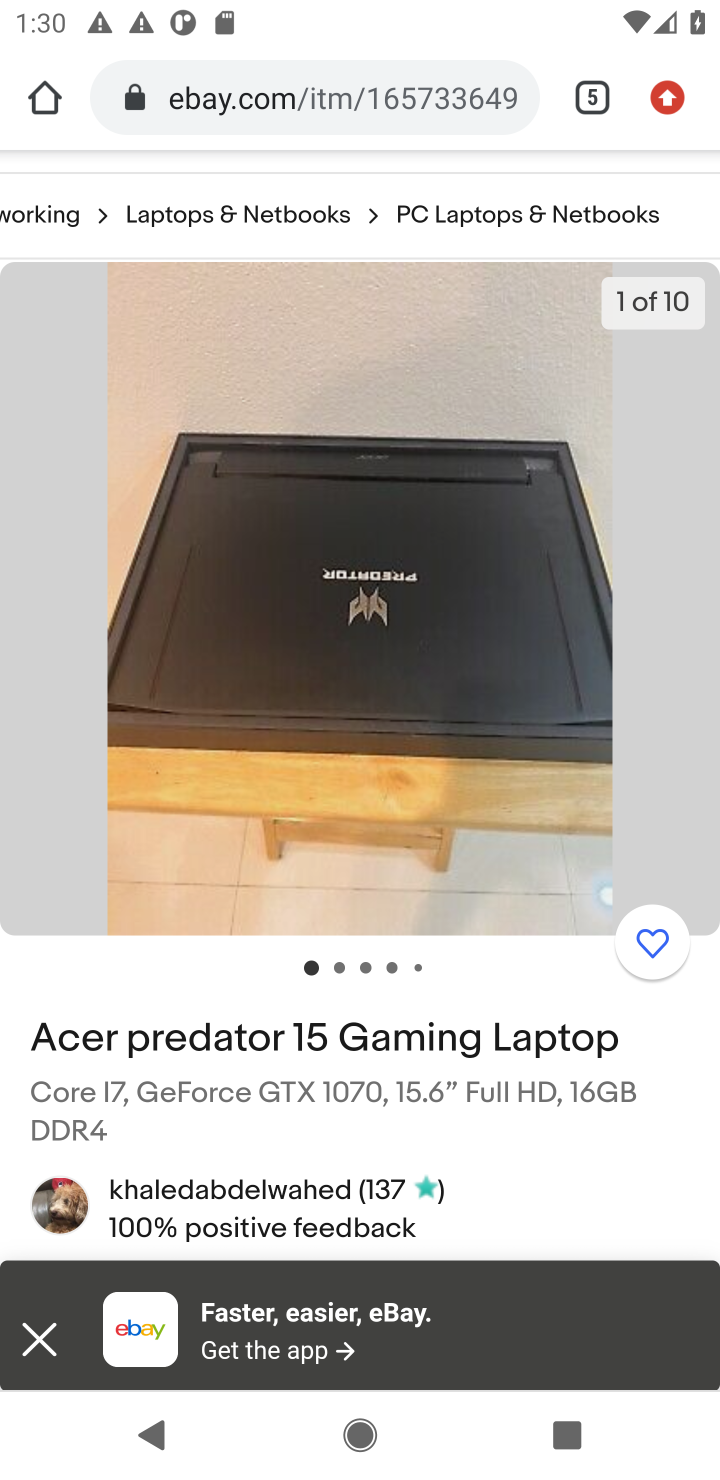
Step 32: task complete